Your task to perform on an android device: Search for flights from Helsinki to Seoul Image 0: 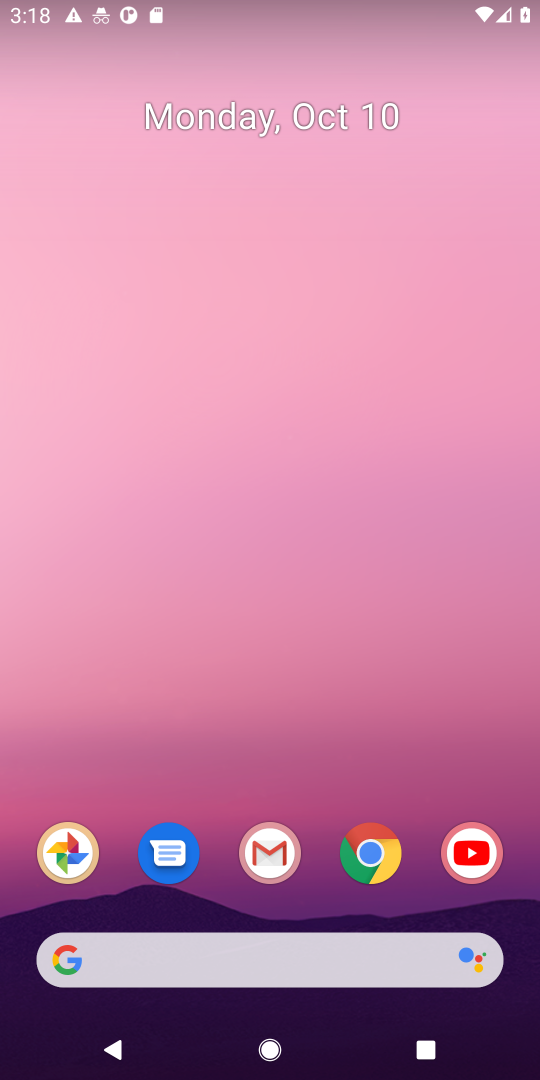
Step 0: click (373, 864)
Your task to perform on an android device: Search for flights from Helsinki to Seoul Image 1: 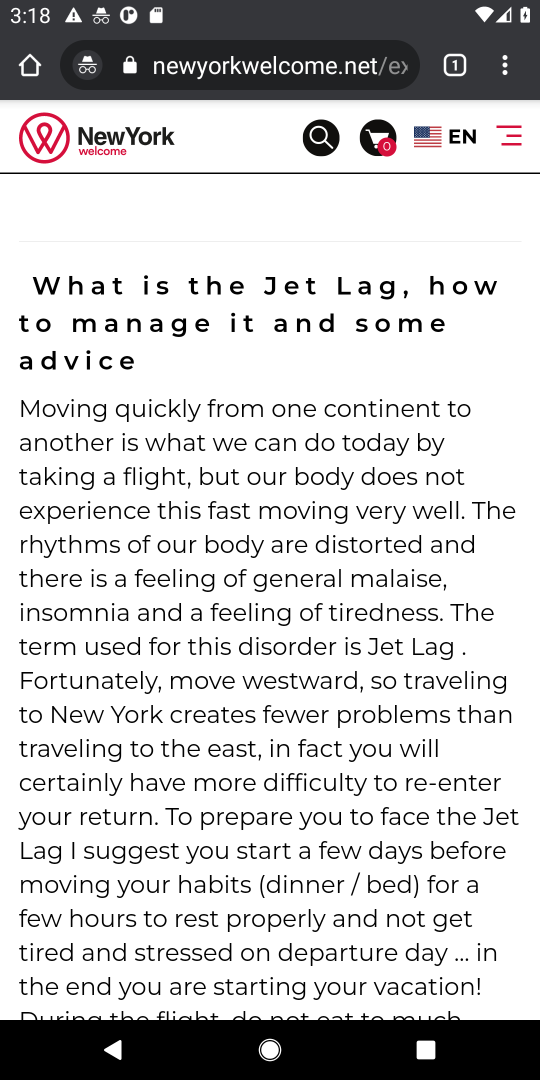
Step 1: click (290, 79)
Your task to perform on an android device: Search for flights from Helsinki to Seoul Image 2: 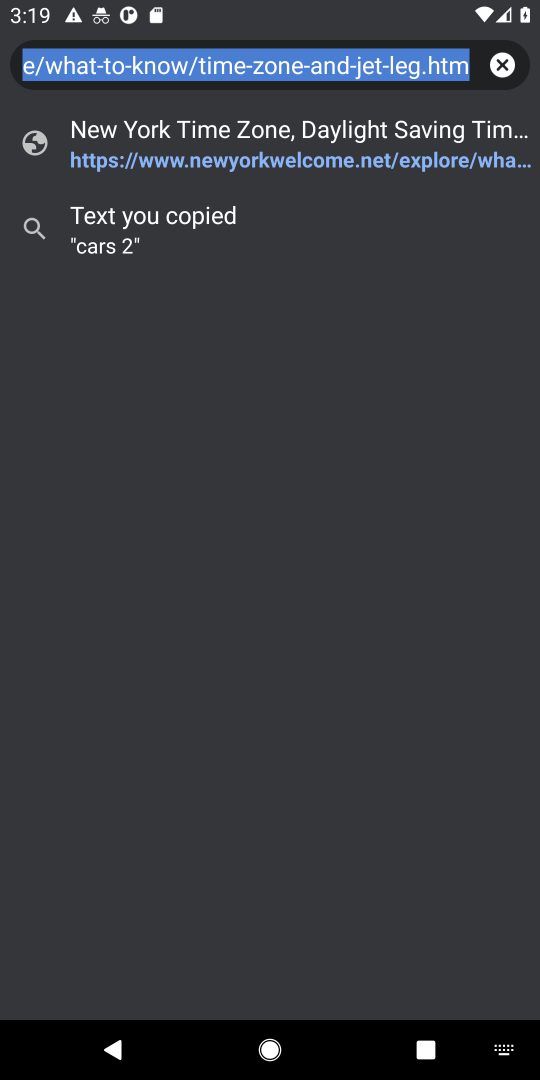
Step 2: click (504, 71)
Your task to perform on an android device: Search for flights from Helsinki to Seoul Image 3: 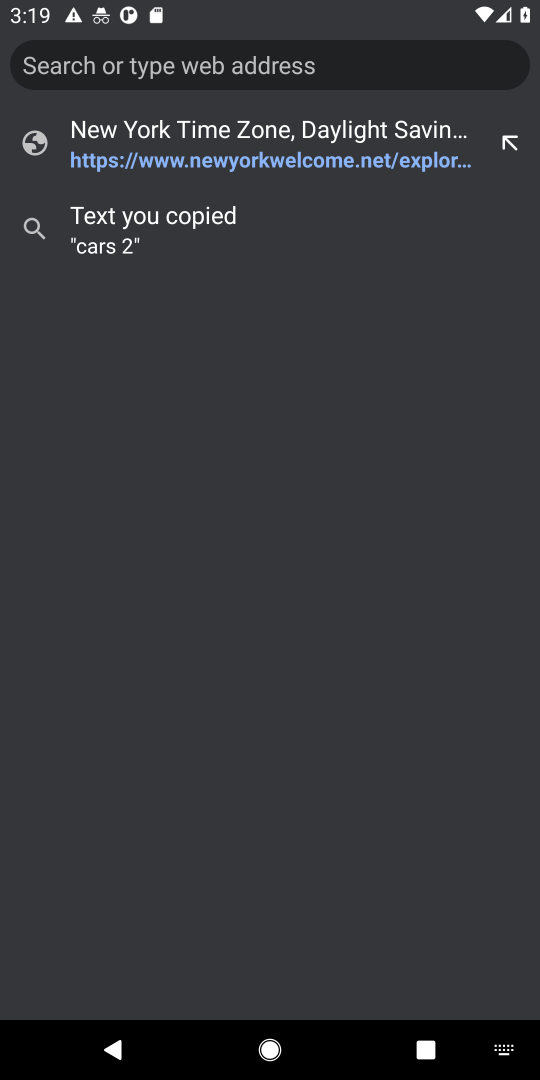
Step 3: type "flights from Helsinki to Seoul"
Your task to perform on an android device: Search for flights from Helsinki to Seoul Image 4: 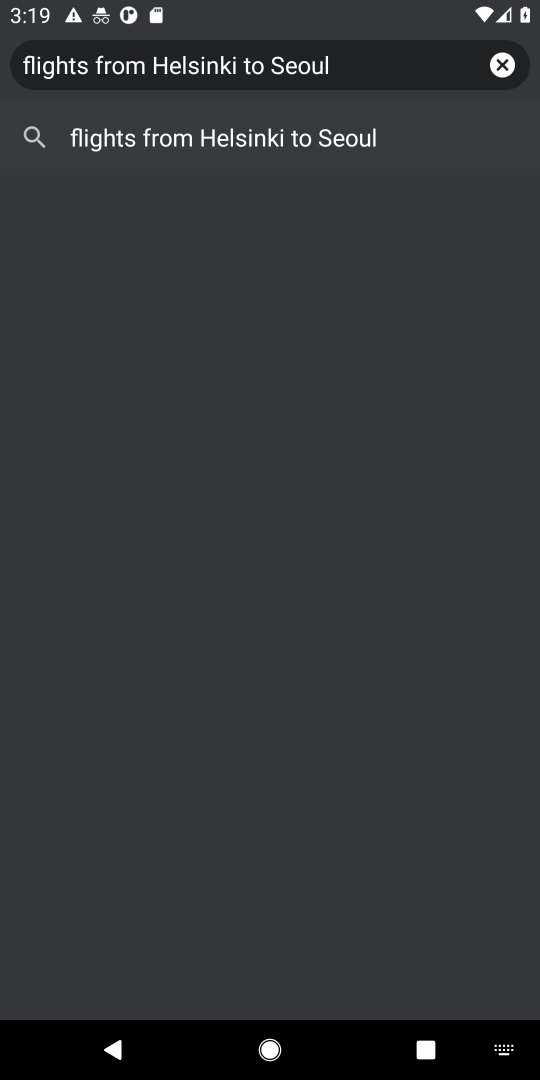
Step 4: type ""
Your task to perform on an android device: Search for flights from Helsinki to Seoul Image 5: 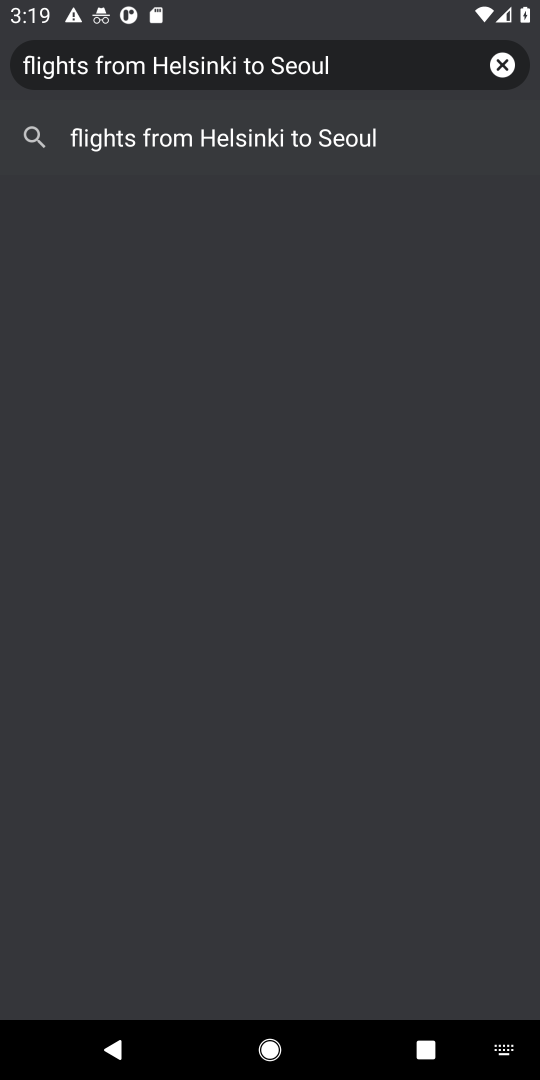
Step 5: click (351, 130)
Your task to perform on an android device: Search for flights from Helsinki to Seoul Image 6: 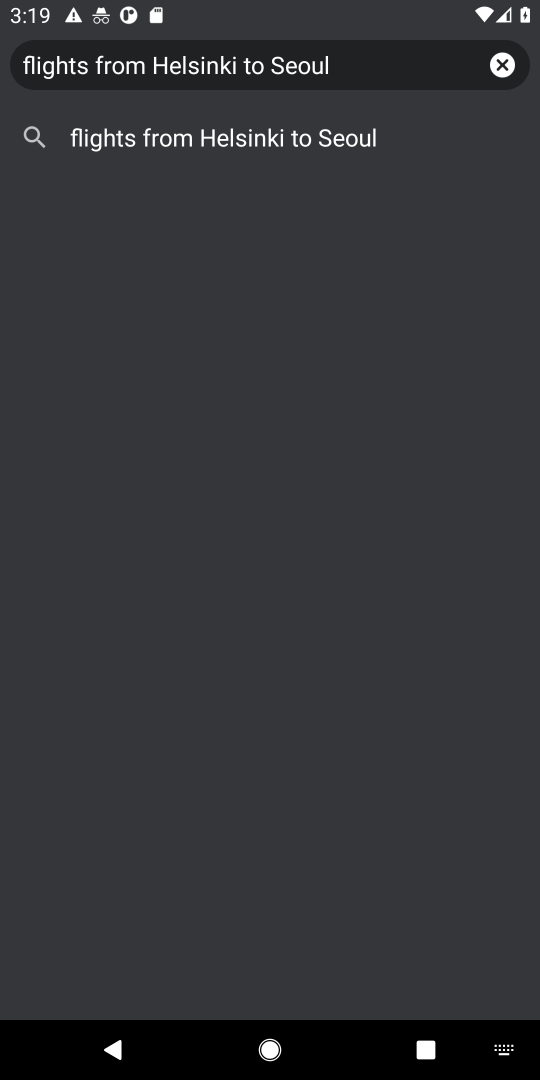
Step 6: press enter
Your task to perform on an android device: Search for flights from Helsinki to Seoul Image 7: 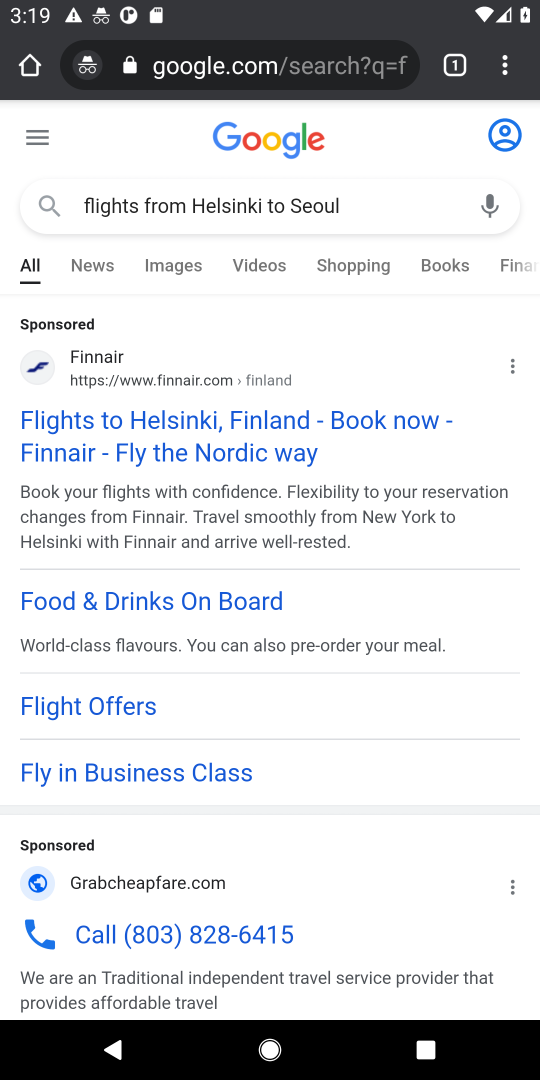
Step 7: click (228, 422)
Your task to perform on an android device: Search for flights from Helsinki to Seoul Image 8: 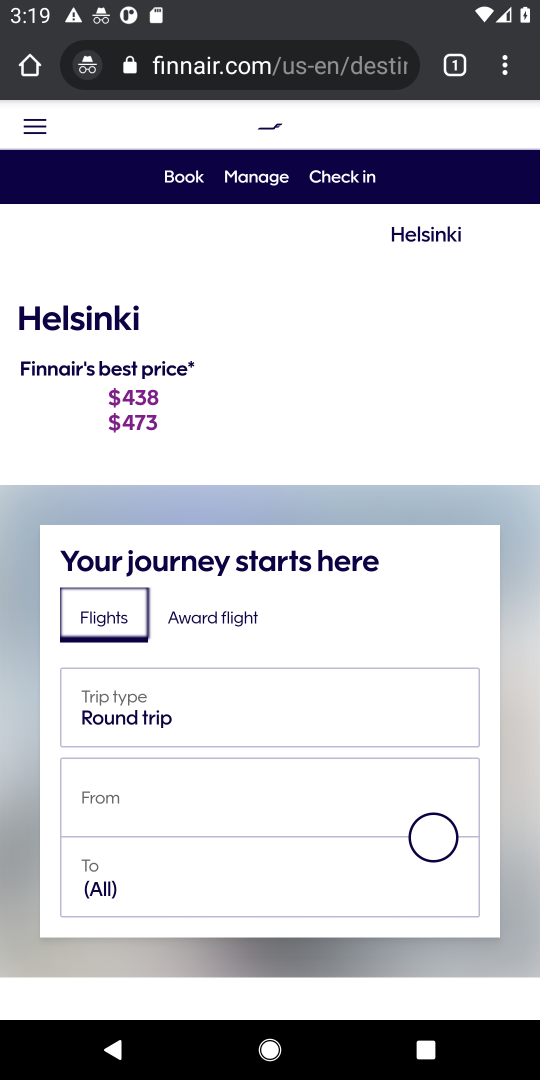
Step 8: drag from (307, 655) to (364, 288)
Your task to perform on an android device: Search for flights from Helsinki to Seoul Image 9: 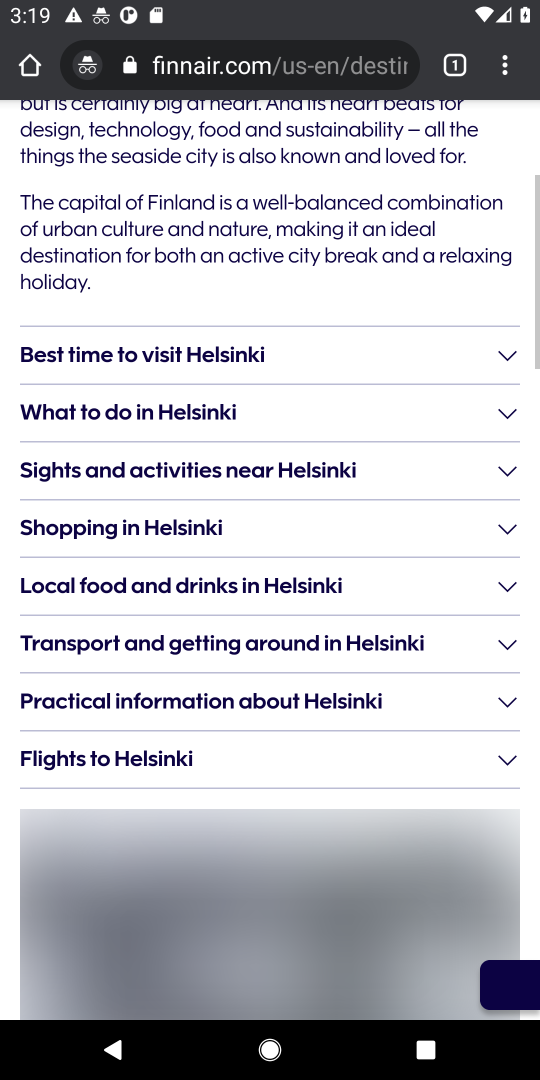
Step 9: drag from (399, 623) to (394, 352)
Your task to perform on an android device: Search for flights from Helsinki to Seoul Image 10: 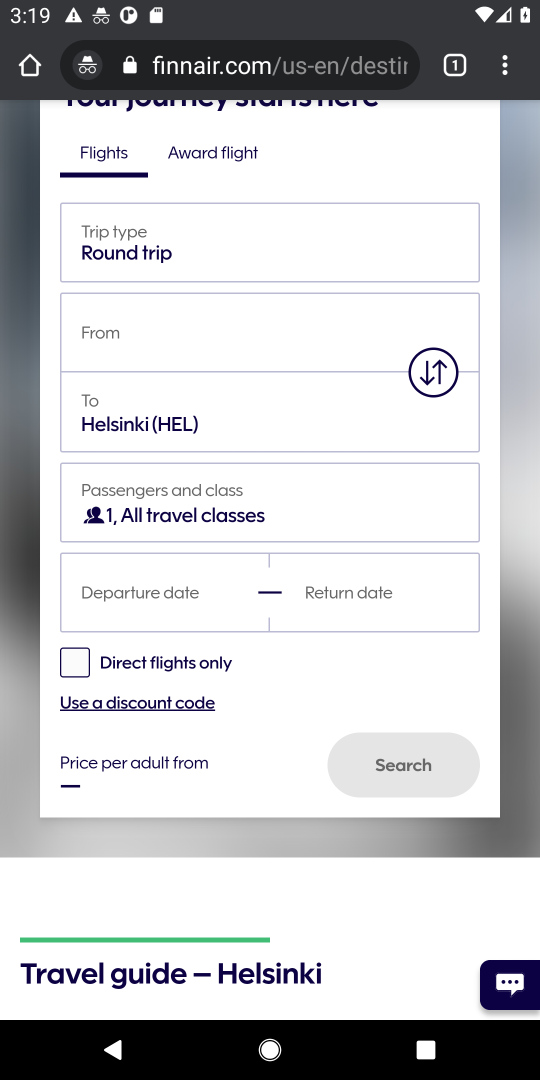
Step 10: drag from (357, 672) to (358, 390)
Your task to perform on an android device: Search for flights from Helsinki to Seoul Image 11: 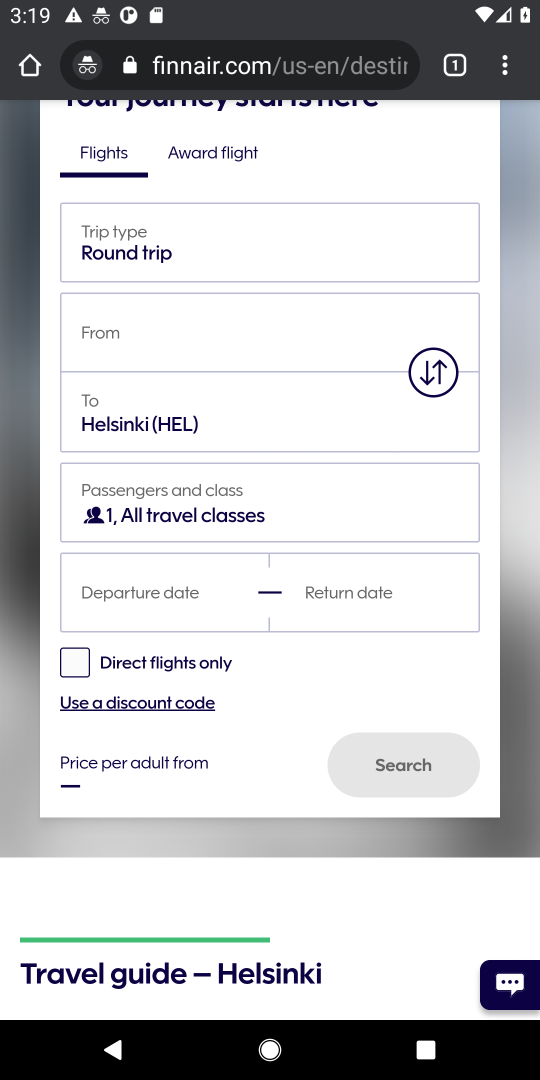
Step 11: drag from (354, 631) to (412, 441)
Your task to perform on an android device: Search for flights from Helsinki to Seoul Image 12: 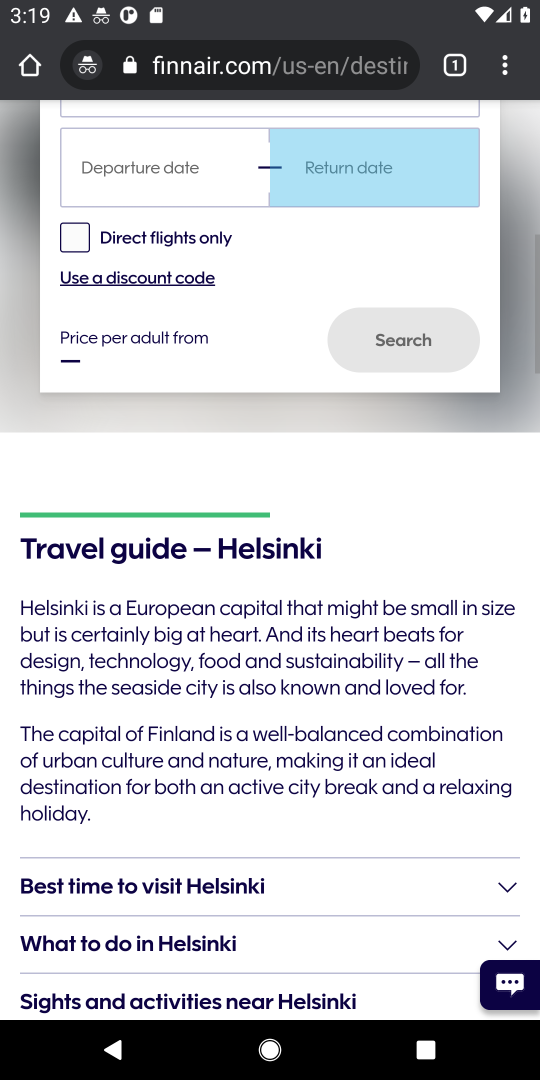
Step 12: drag from (460, 745) to (418, 411)
Your task to perform on an android device: Search for flights from Helsinki to Seoul Image 13: 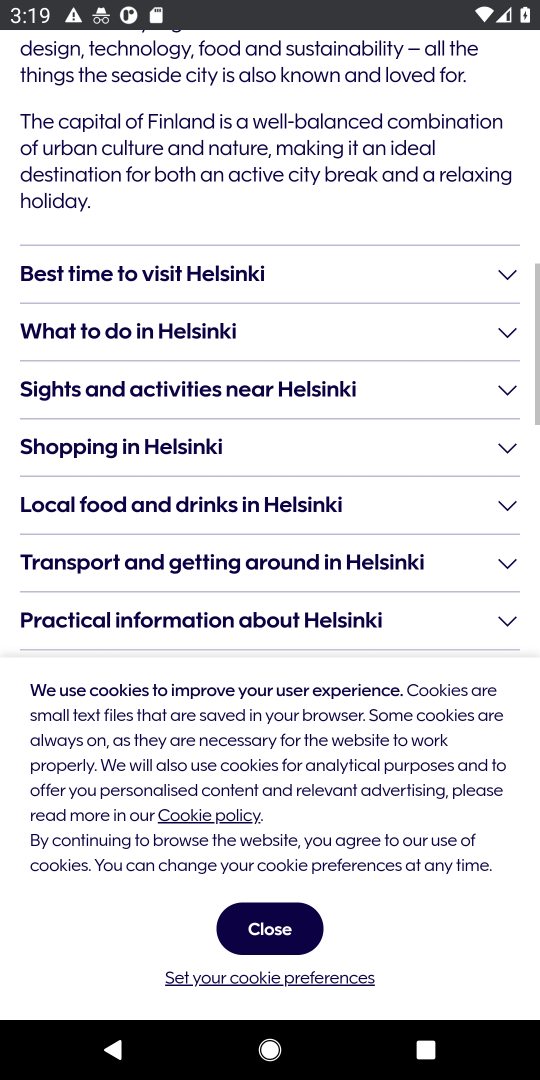
Step 13: click (419, 502)
Your task to perform on an android device: Search for flights from Helsinki to Seoul Image 14: 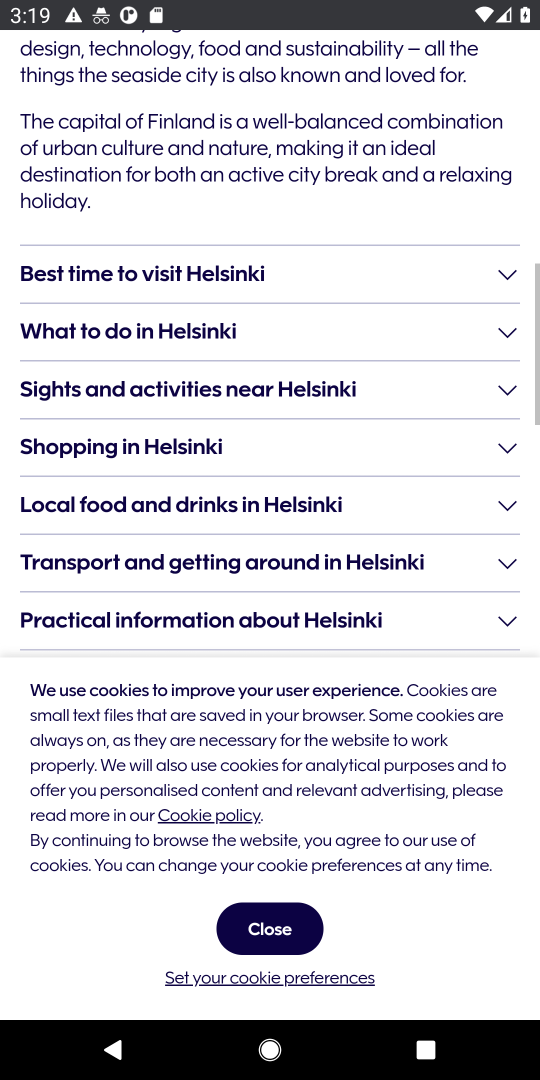
Step 14: click (259, 937)
Your task to perform on an android device: Search for flights from Helsinki to Seoul Image 15: 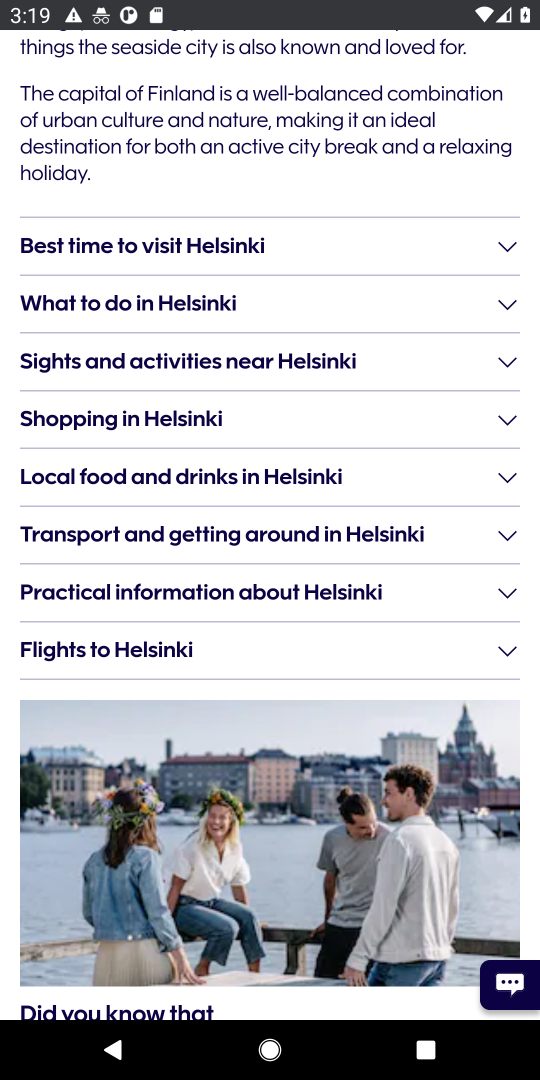
Step 15: drag from (265, 681) to (256, 403)
Your task to perform on an android device: Search for flights from Helsinki to Seoul Image 16: 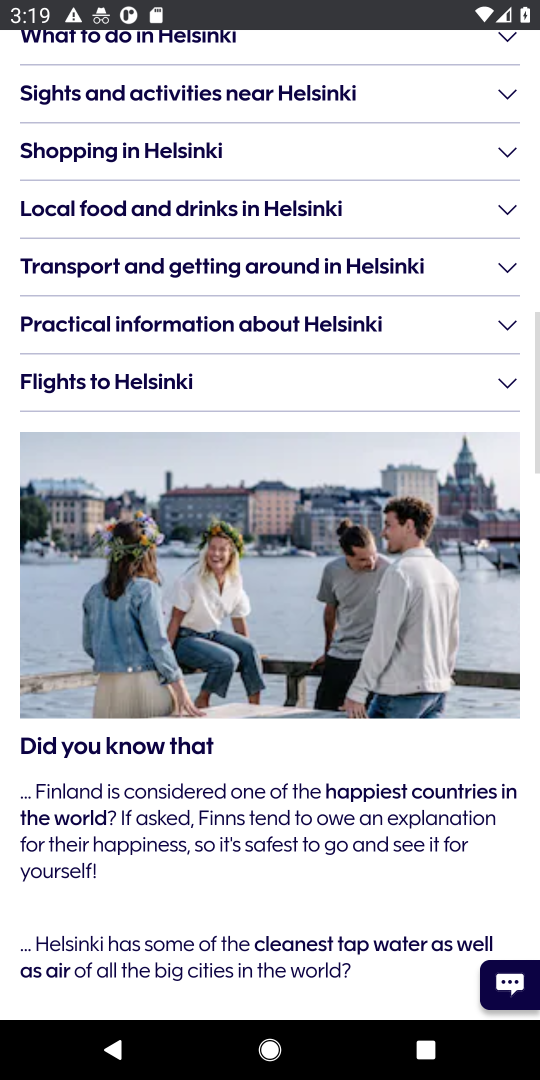
Step 16: drag from (260, 578) to (279, 375)
Your task to perform on an android device: Search for flights from Helsinki to Seoul Image 17: 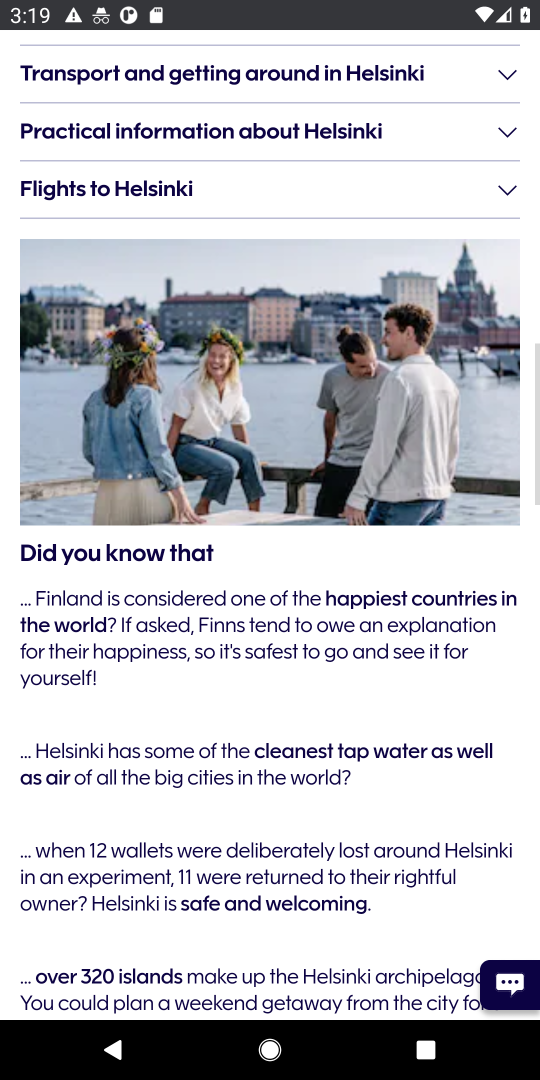
Step 17: drag from (282, 795) to (313, 370)
Your task to perform on an android device: Search for flights from Helsinki to Seoul Image 18: 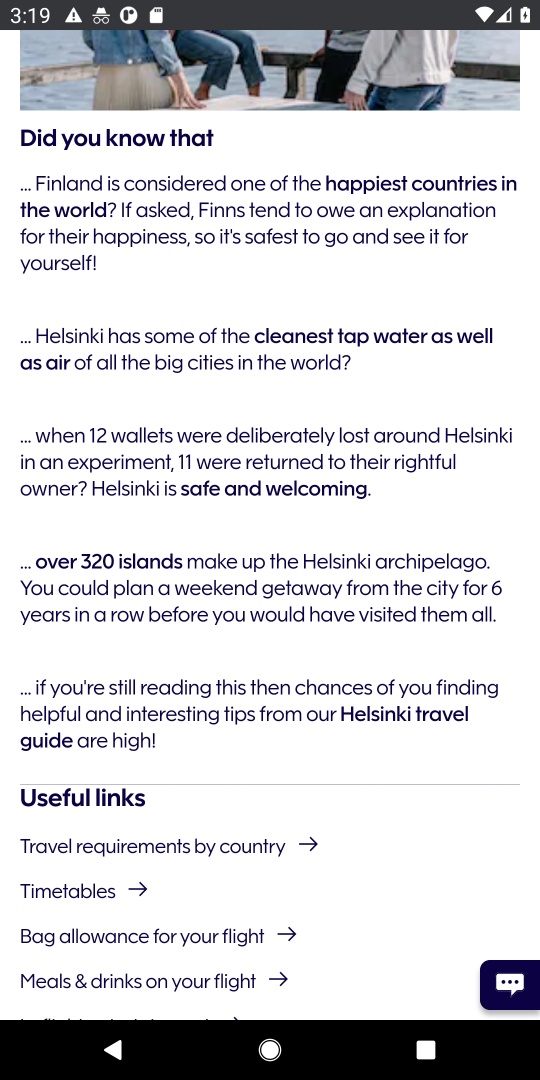
Step 18: drag from (390, 646) to (368, 490)
Your task to perform on an android device: Search for flights from Helsinki to Seoul Image 19: 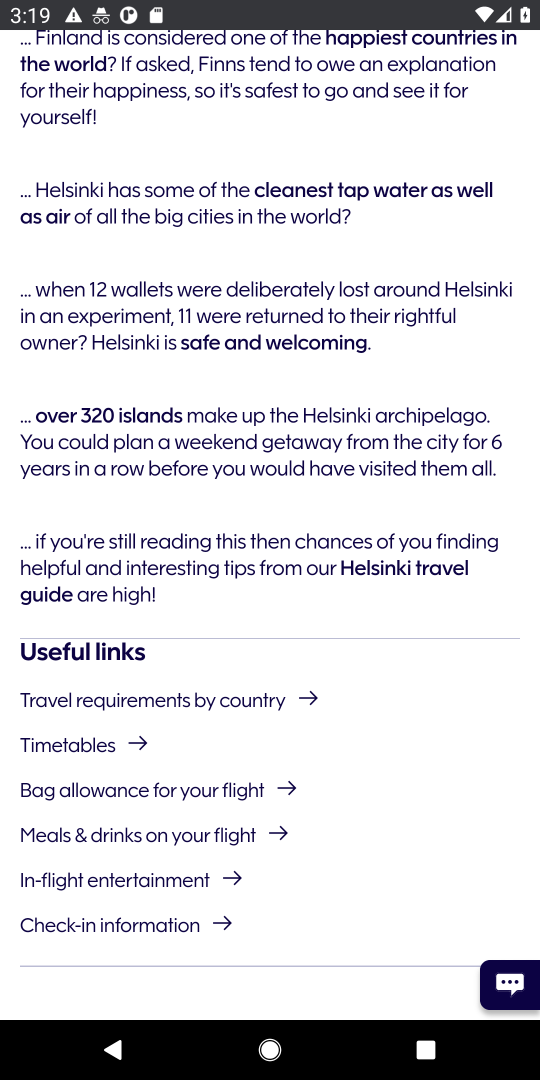
Step 19: drag from (404, 855) to (382, 269)
Your task to perform on an android device: Search for flights from Helsinki to Seoul Image 20: 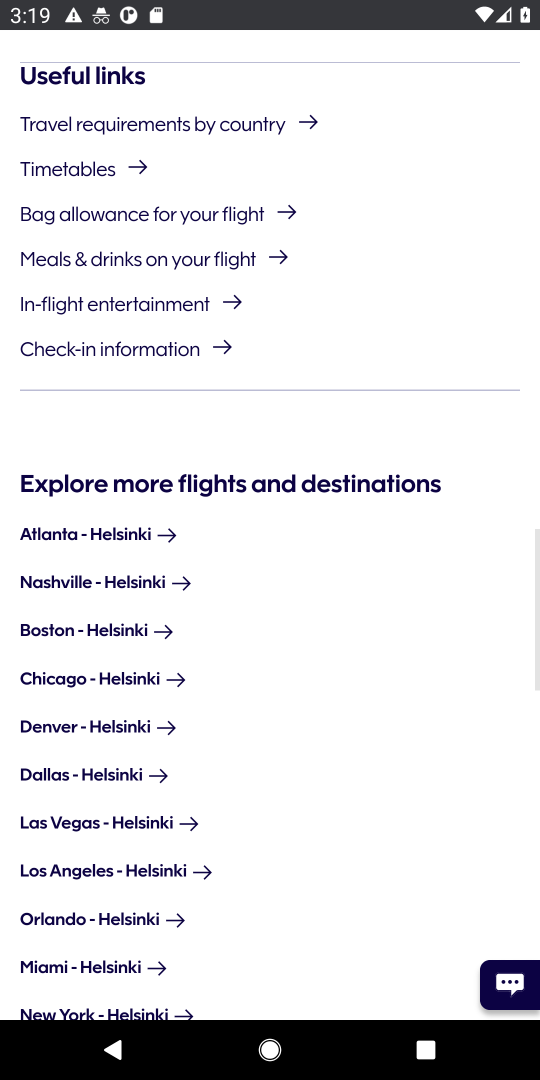
Step 20: drag from (457, 417) to (515, 212)
Your task to perform on an android device: Search for flights from Helsinki to Seoul Image 21: 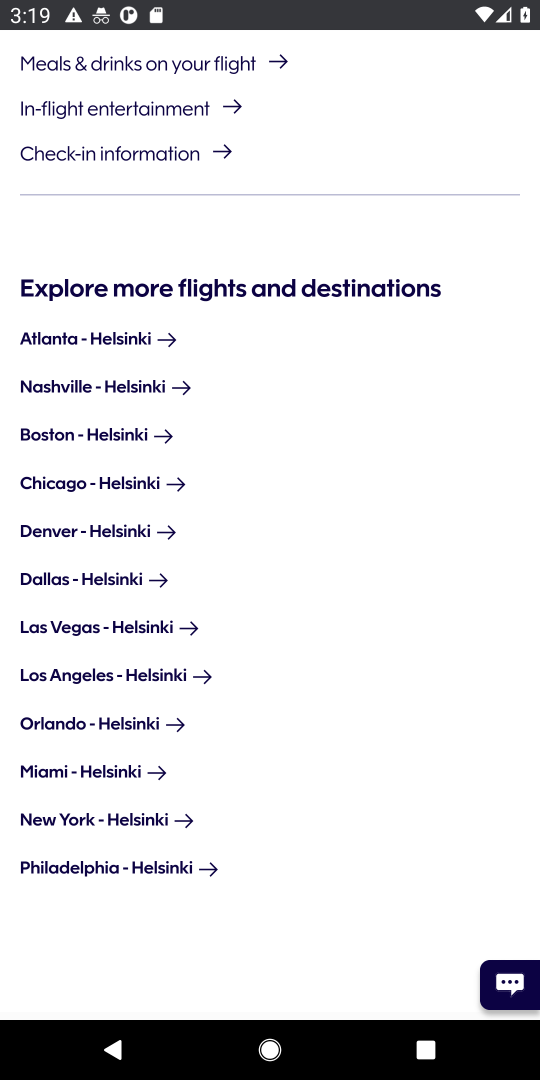
Step 21: drag from (527, 617) to (488, 236)
Your task to perform on an android device: Search for flights from Helsinki to Seoul Image 22: 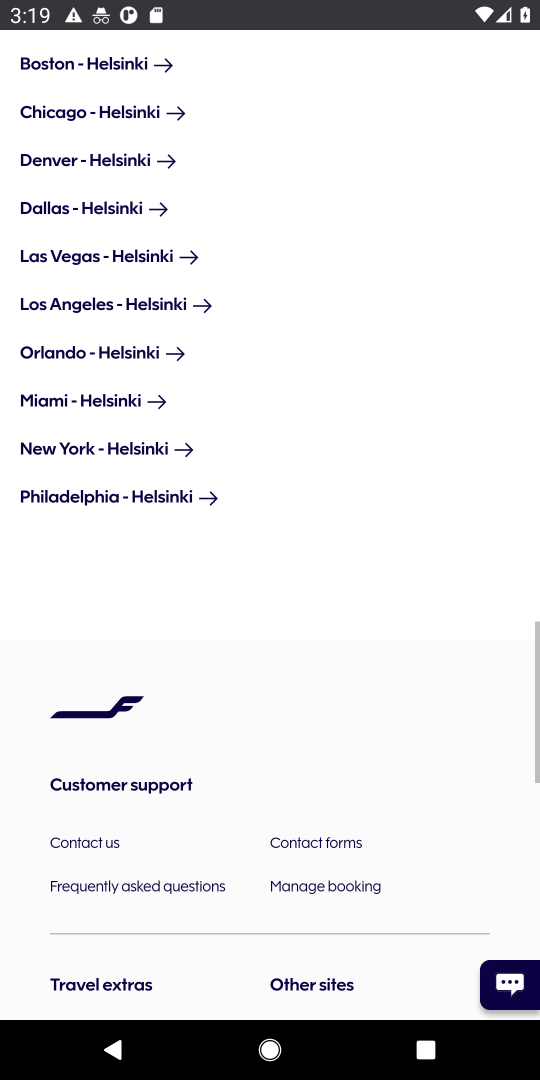
Step 22: drag from (455, 514) to (447, 722)
Your task to perform on an android device: Search for flights from Helsinki to Seoul Image 23: 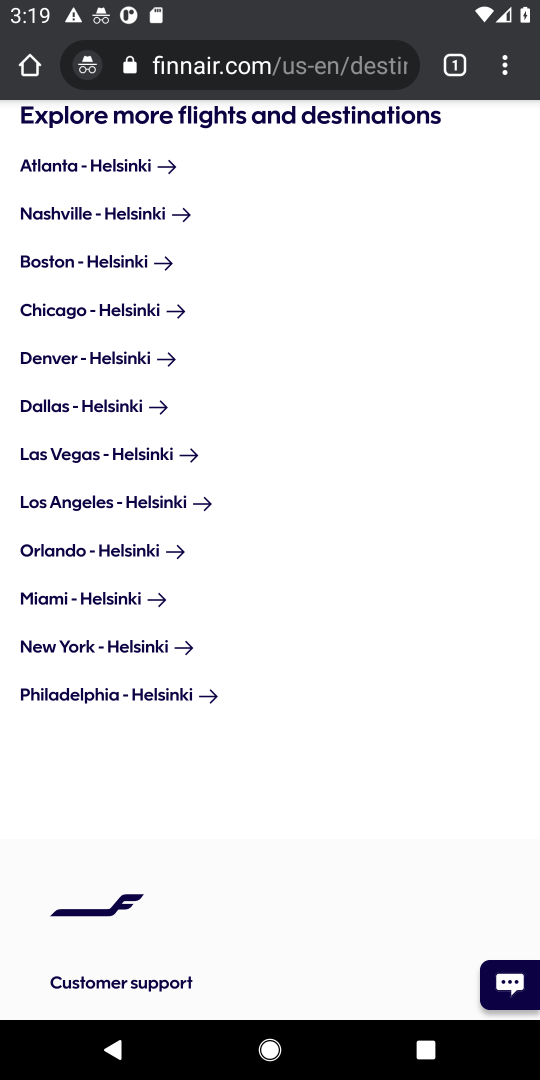
Step 23: press back button
Your task to perform on an android device: Search for flights from Helsinki to Seoul Image 24: 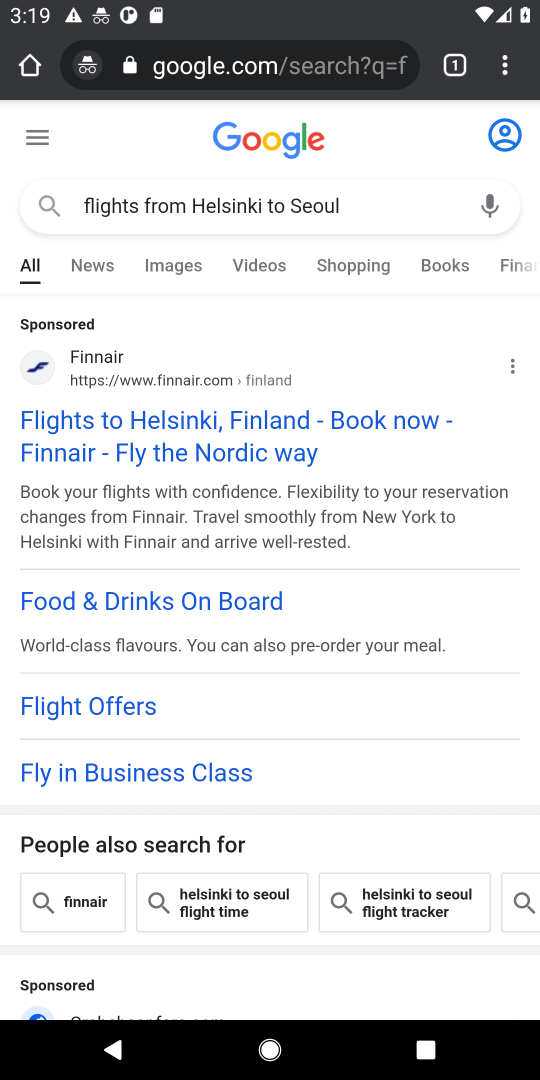
Step 24: drag from (311, 602) to (309, 365)
Your task to perform on an android device: Search for flights from Helsinki to Seoul Image 25: 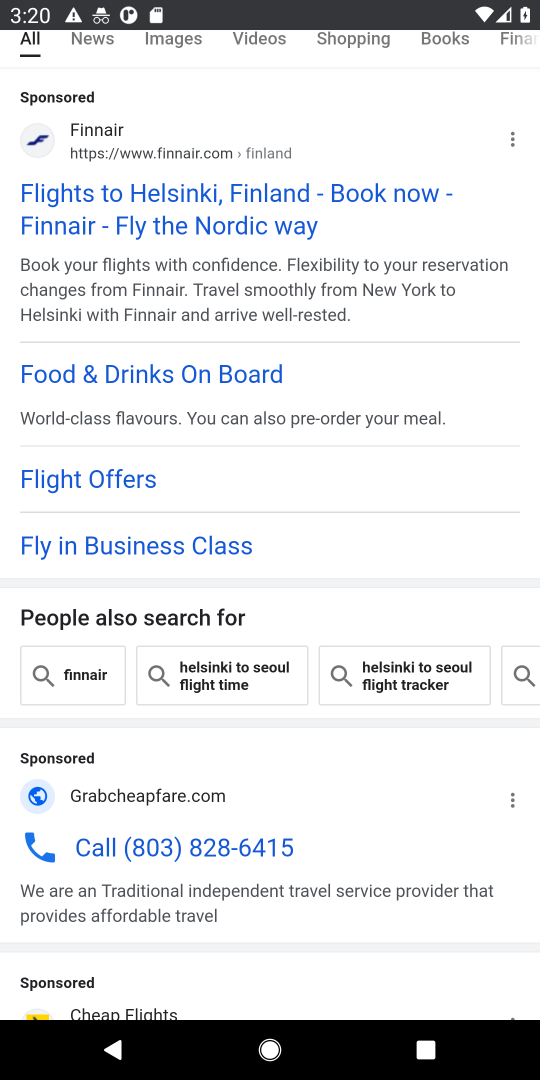
Step 25: drag from (188, 773) to (244, 132)
Your task to perform on an android device: Search for flights from Helsinki to Seoul Image 26: 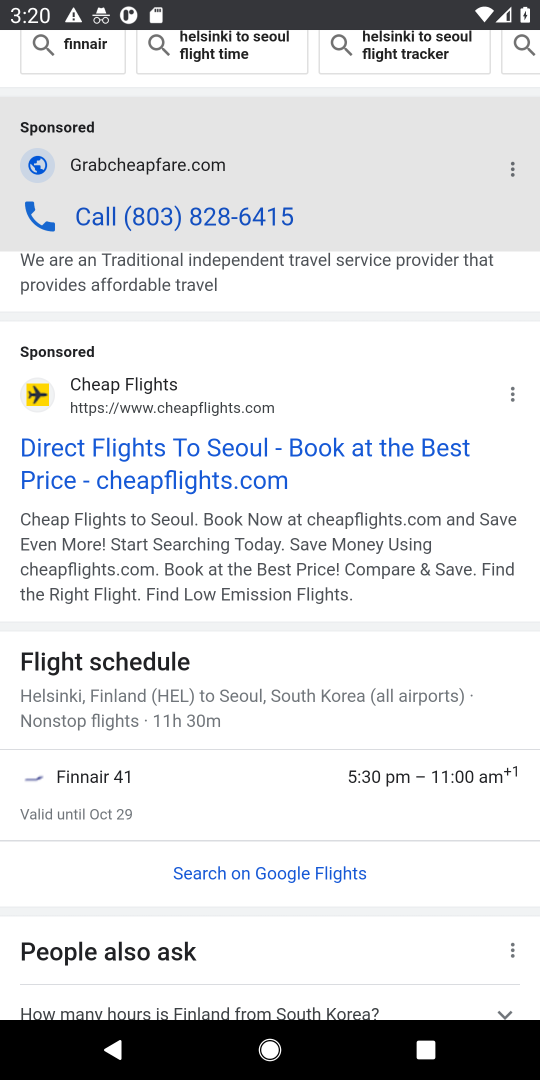
Step 26: click (119, 444)
Your task to perform on an android device: Search for flights from Helsinki to Seoul Image 27: 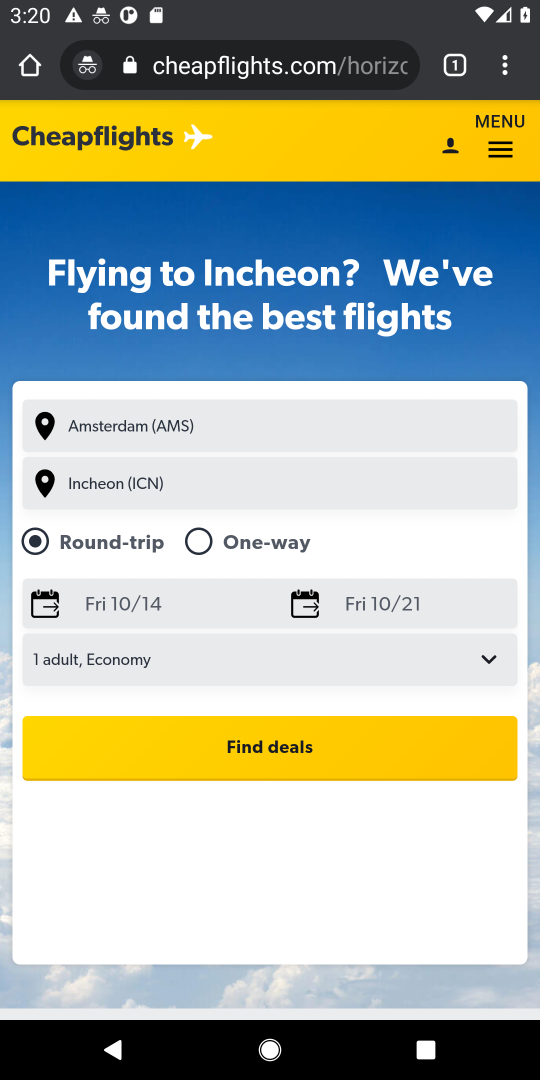
Step 27: drag from (190, 909) to (326, 258)
Your task to perform on an android device: Search for flights from Helsinki to Seoul Image 28: 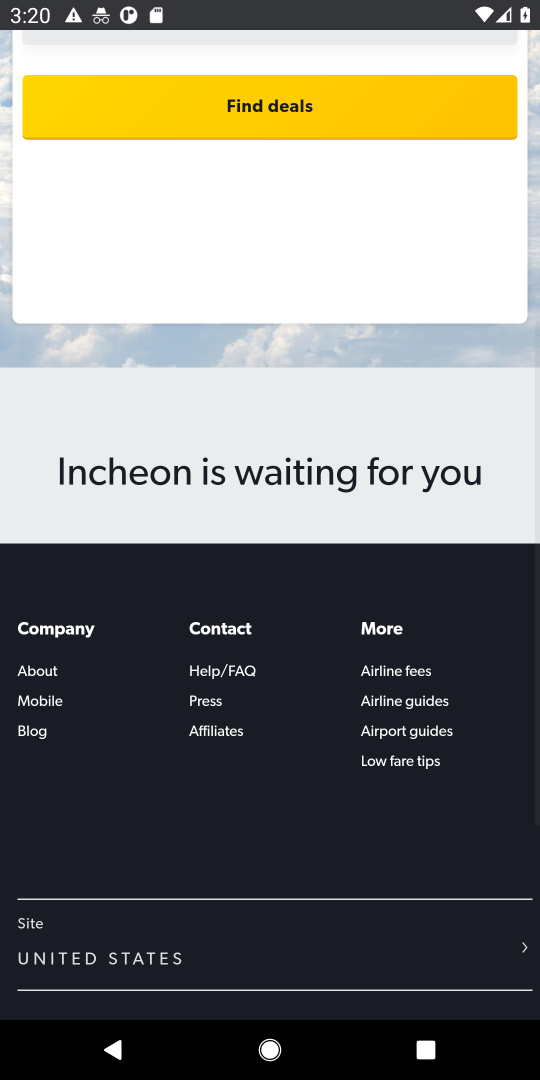
Step 28: drag from (360, 514) to (404, 971)
Your task to perform on an android device: Search for flights from Helsinki to Seoul Image 29: 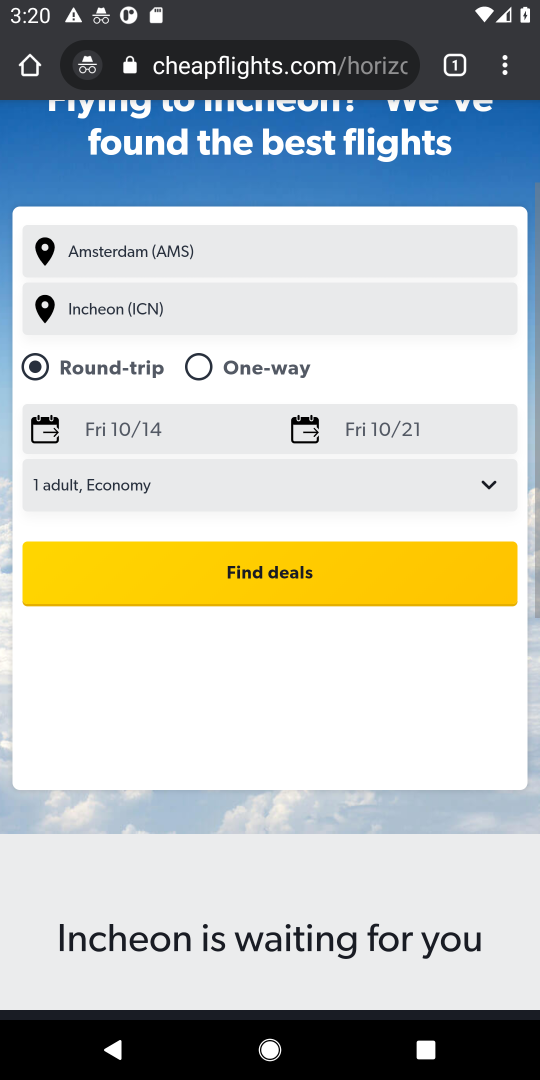
Step 29: drag from (400, 318) to (352, 845)
Your task to perform on an android device: Search for flights from Helsinki to Seoul Image 30: 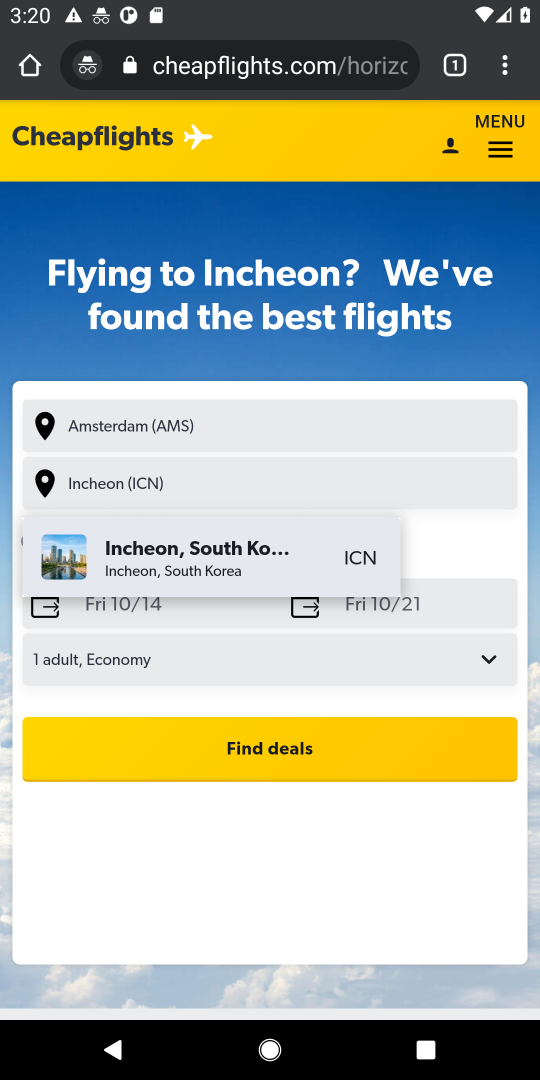
Step 30: drag from (341, 474) to (382, 578)
Your task to perform on an android device: Search for flights from Helsinki to Seoul Image 31: 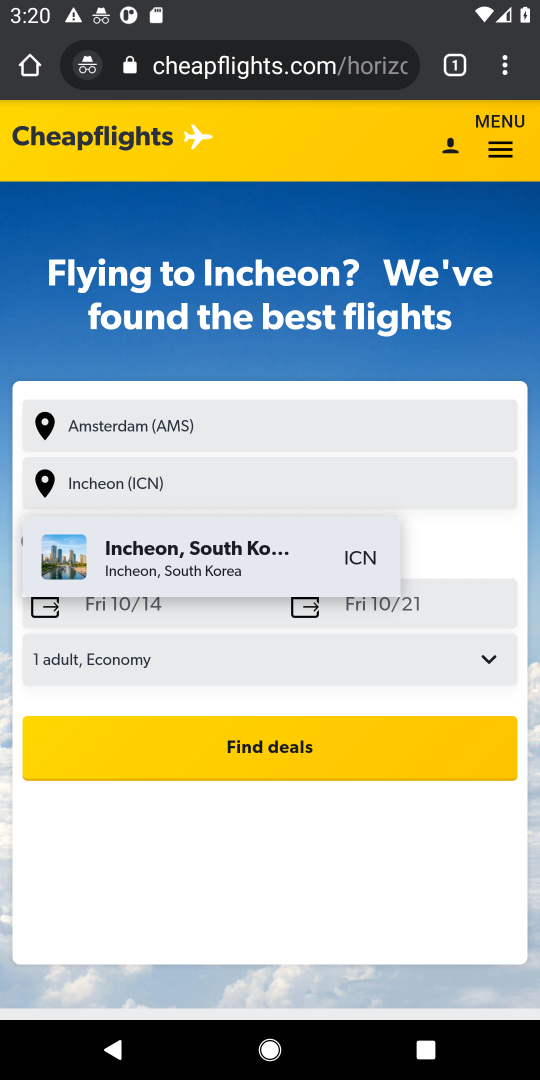
Step 31: press back button
Your task to perform on an android device: Search for flights from Helsinki to Seoul Image 32: 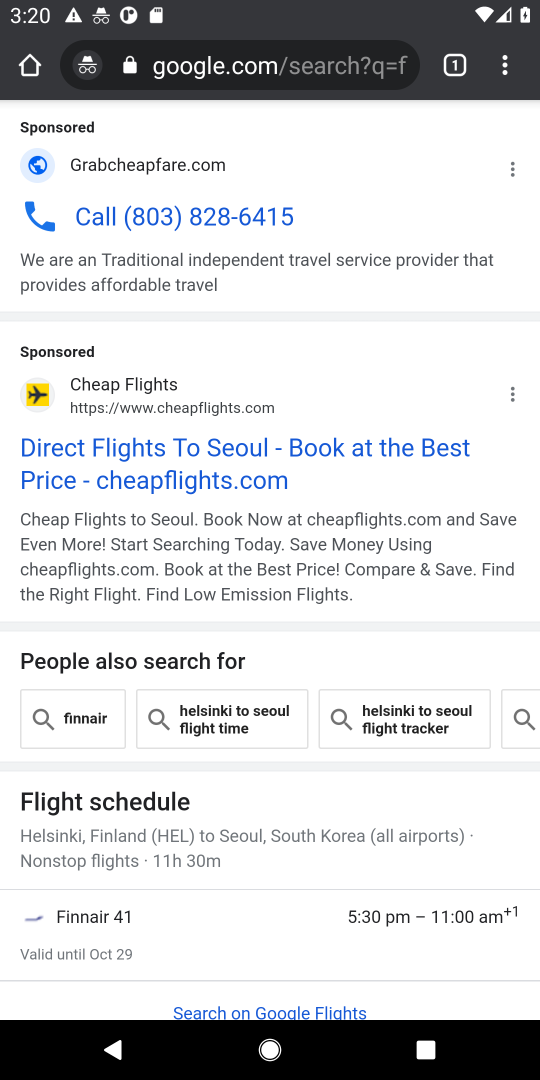
Step 32: drag from (226, 762) to (251, 308)
Your task to perform on an android device: Search for flights from Helsinki to Seoul Image 33: 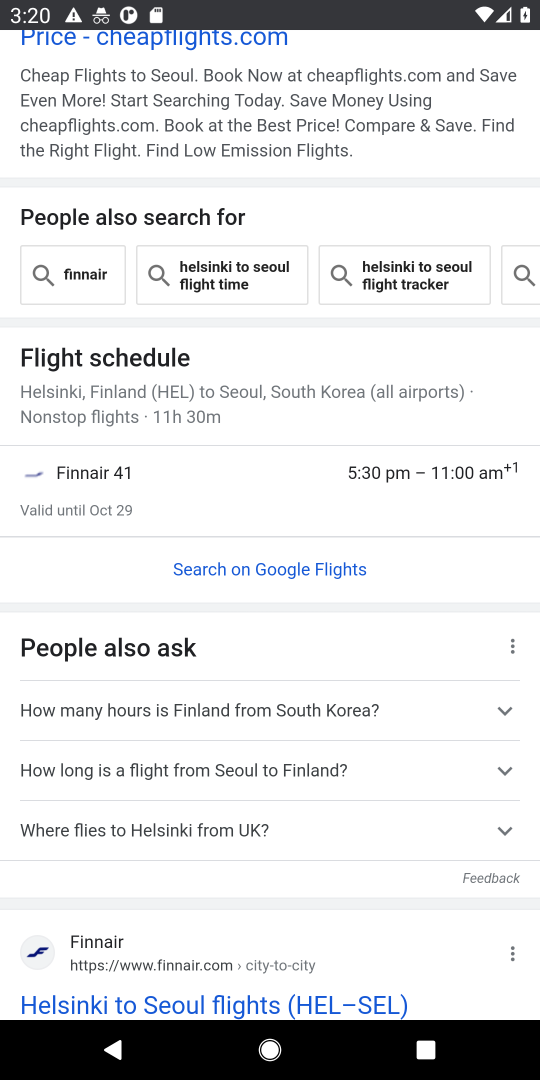
Step 33: click (194, 981)
Your task to perform on an android device: Search for flights from Helsinki to Seoul Image 34: 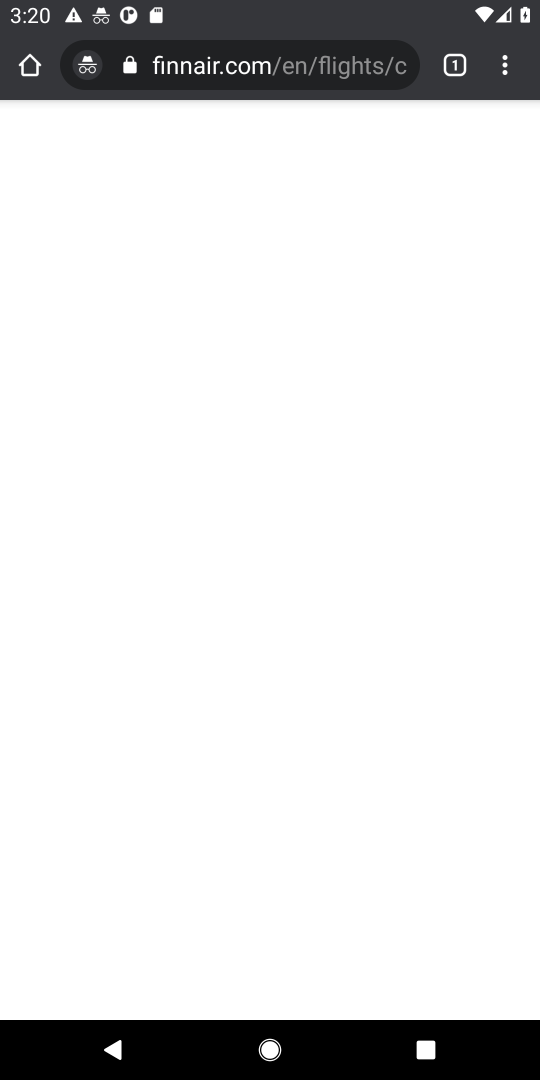
Step 34: drag from (198, 981) to (253, 371)
Your task to perform on an android device: Search for flights from Helsinki to Seoul Image 35: 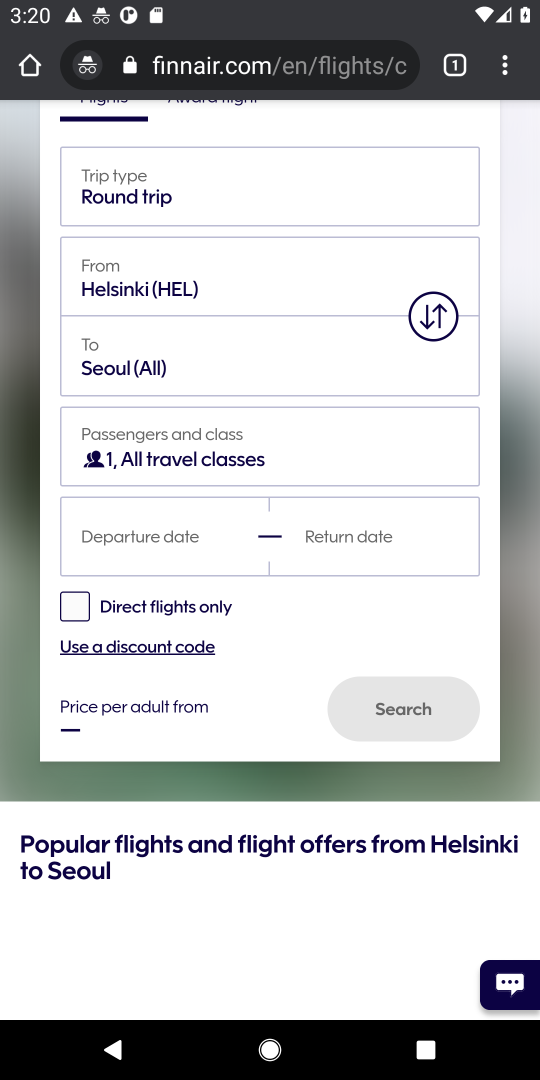
Step 35: drag from (232, 751) to (257, 334)
Your task to perform on an android device: Search for flights from Helsinki to Seoul Image 36: 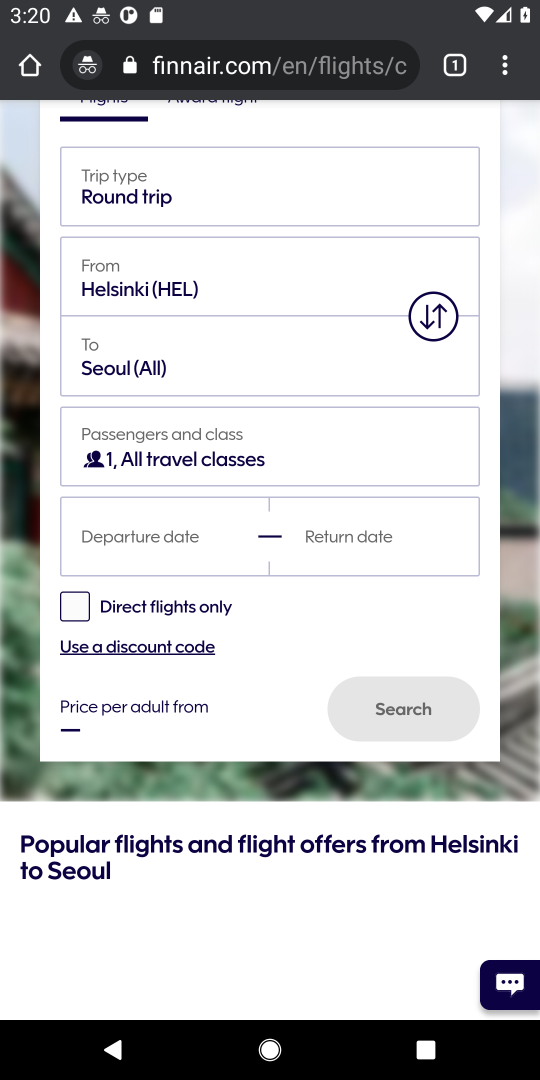
Step 36: drag from (250, 823) to (280, 354)
Your task to perform on an android device: Search for flights from Helsinki to Seoul Image 37: 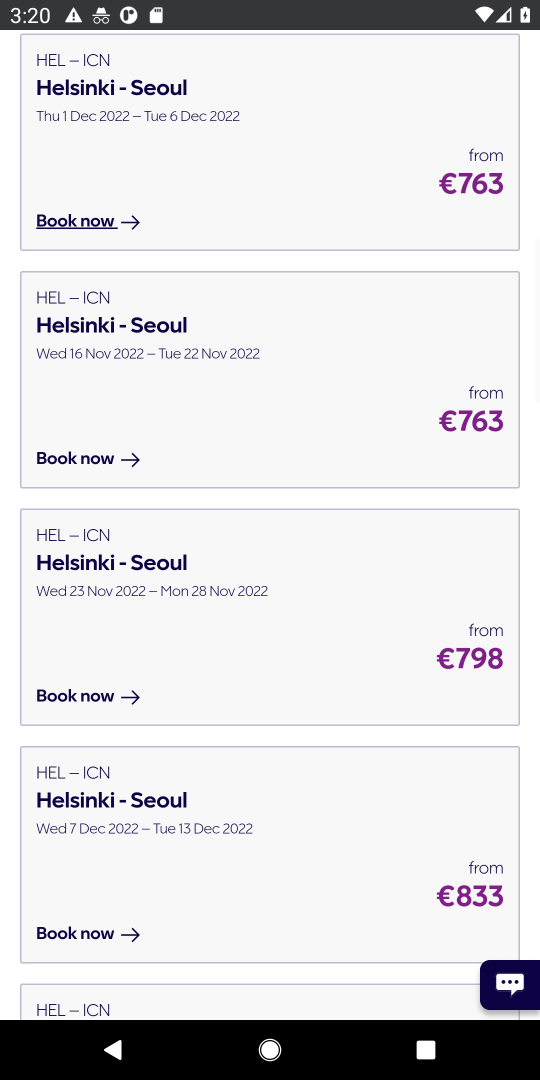
Step 37: drag from (225, 881) to (312, 204)
Your task to perform on an android device: Search for flights from Helsinki to Seoul Image 38: 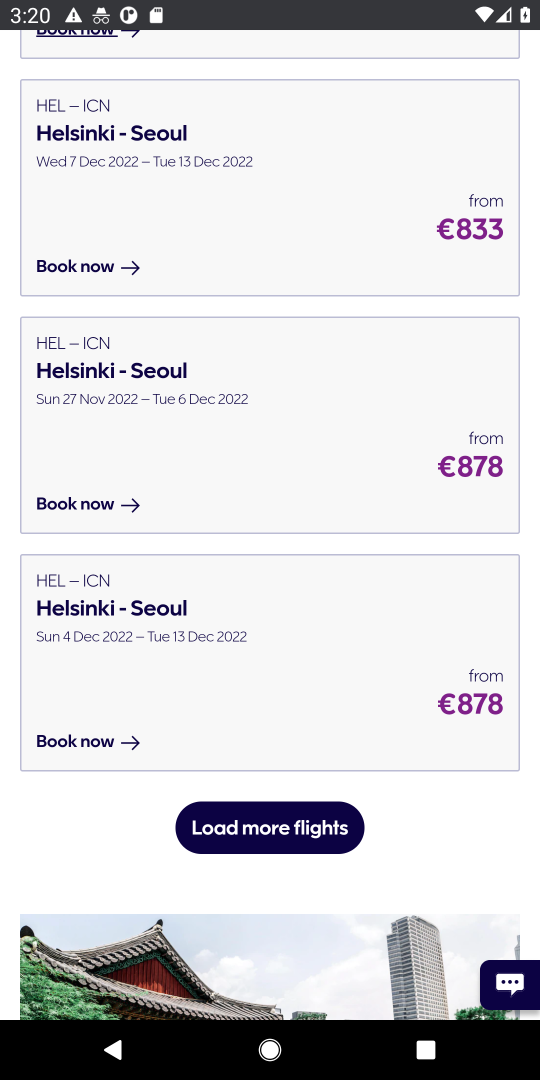
Step 38: drag from (320, 754) to (330, 260)
Your task to perform on an android device: Search for flights from Helsinki to Seoul Image 39: 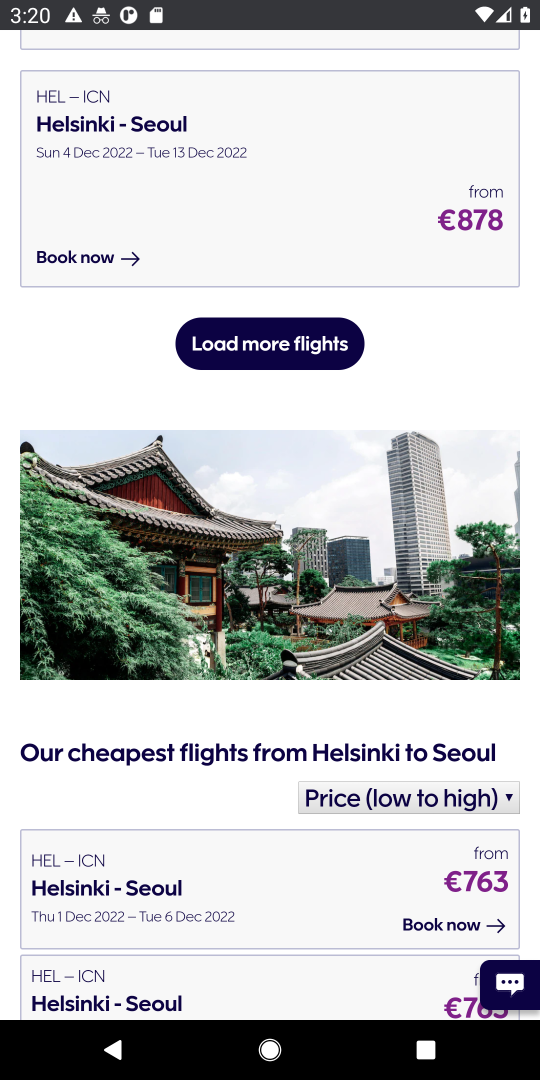
Step 39: drag from (354, 440) to (361, 345)
Your task to perform on an android device: Search for flights from Helsinki to Seoul Image 40: 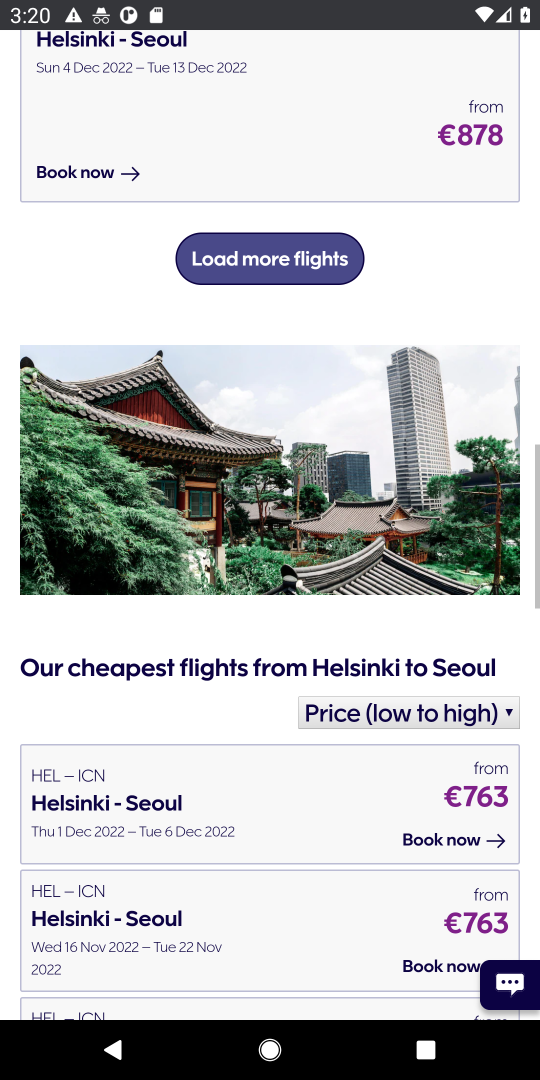
Step 40: drag from (347, 569) to (344, 326)
Your task to perform on an android device: Search for flights from Helsinki to Seoul Image 41: 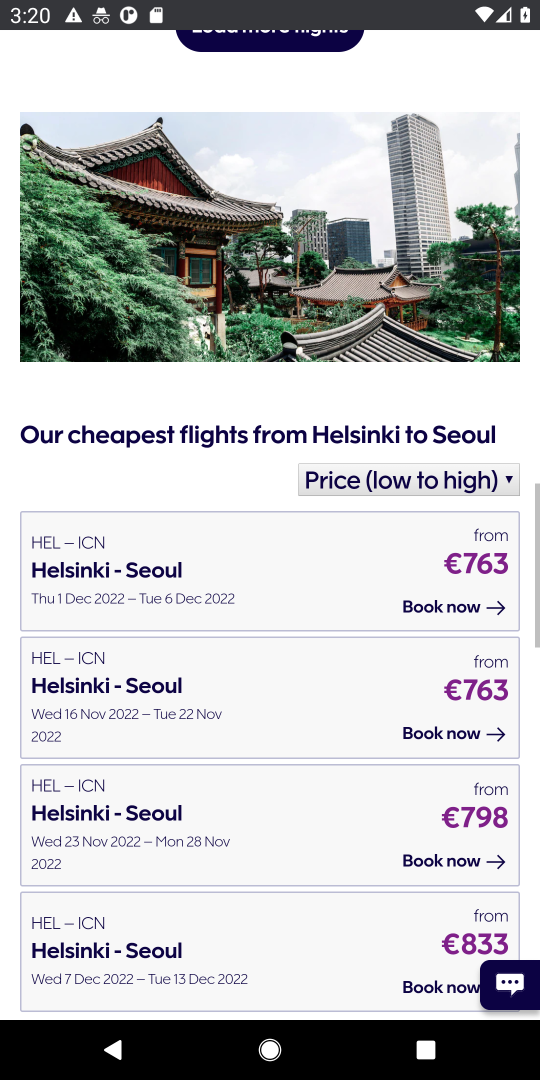
Step 41: drag from (362, 719) to (293, 394)
Your task to perform on an android device: Search for flights from Helsinki to Seoul Image 42: 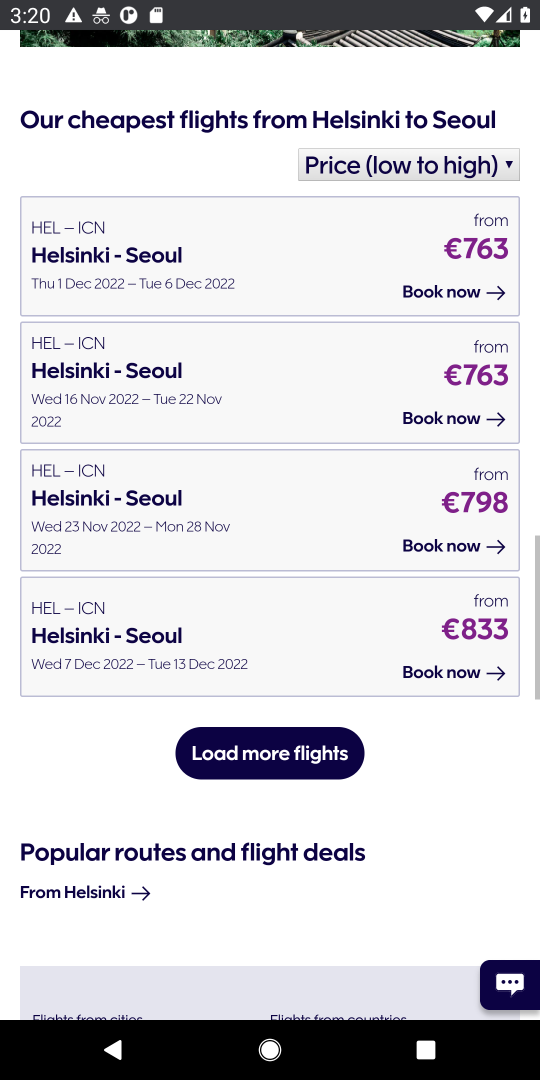
Step 42: drag from (284, 494) to (289, 407)
Your task to perform on an android device: Search for flights from Helsinki to Seoul Image 43: 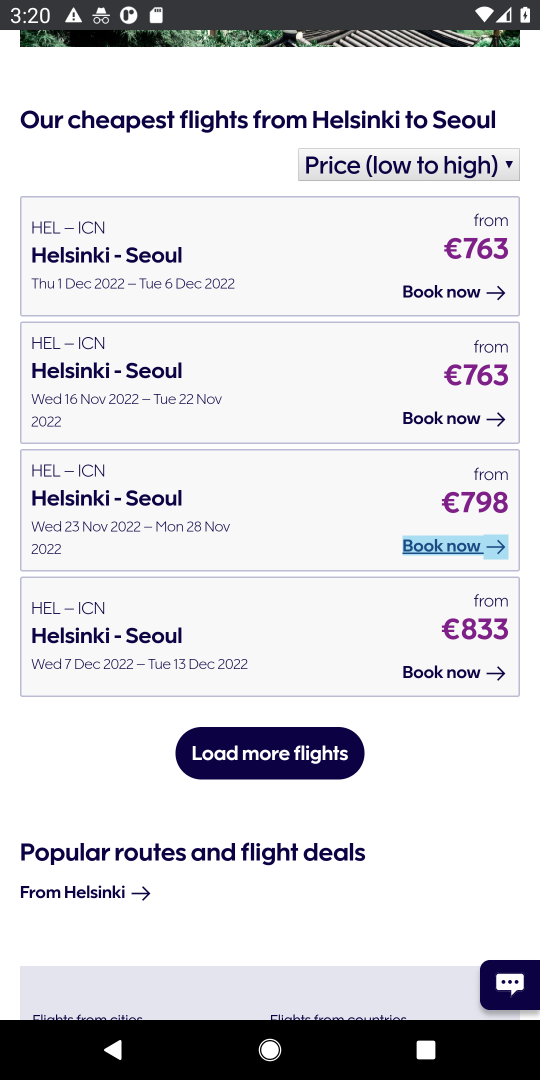
Step 43: drag from (322, 905) to (360, 399)
Your task to perform on an android device: Search for flights from Helsinki to Seoul Image 44: 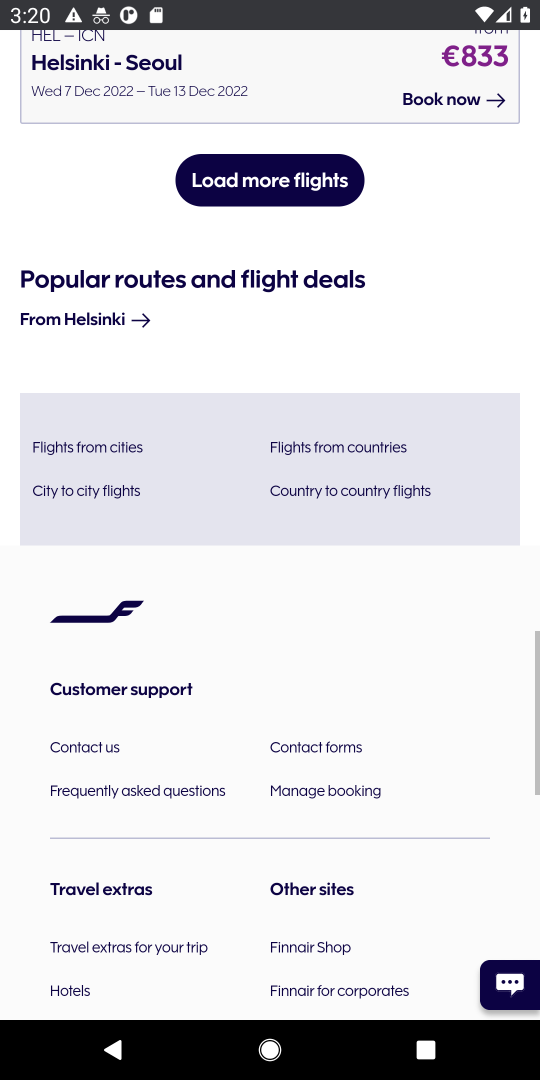
Step 44: drag from (401, 812) to (427, 363)
Your task to perform on an android device: Search for flights from Helsinki to Seoul Image 45: 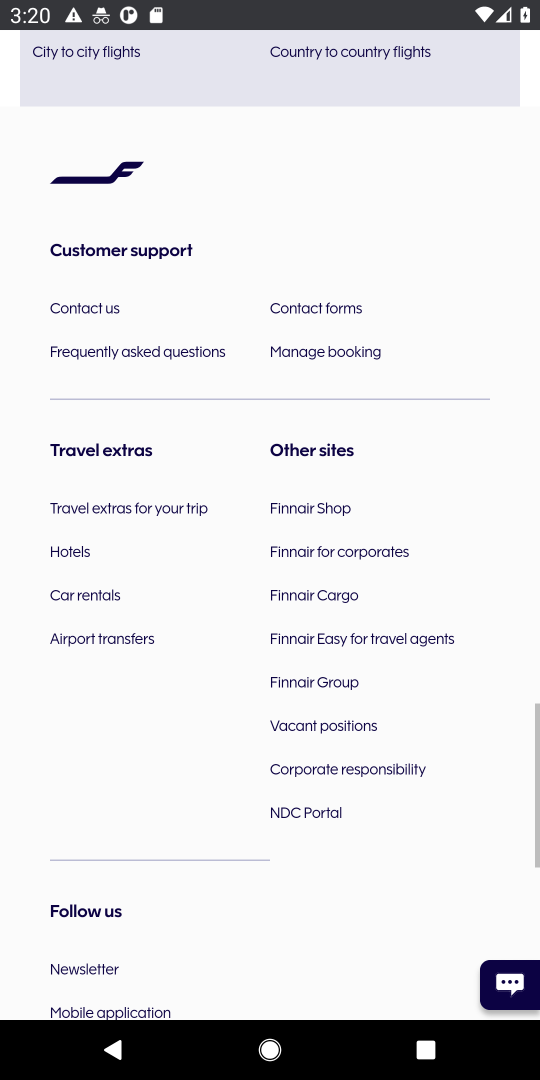
Step 45: drag from (428, 877) to (451, 406)
Your task to perform on an android device: Search for flights from Helsinki to Seoul Image 46: 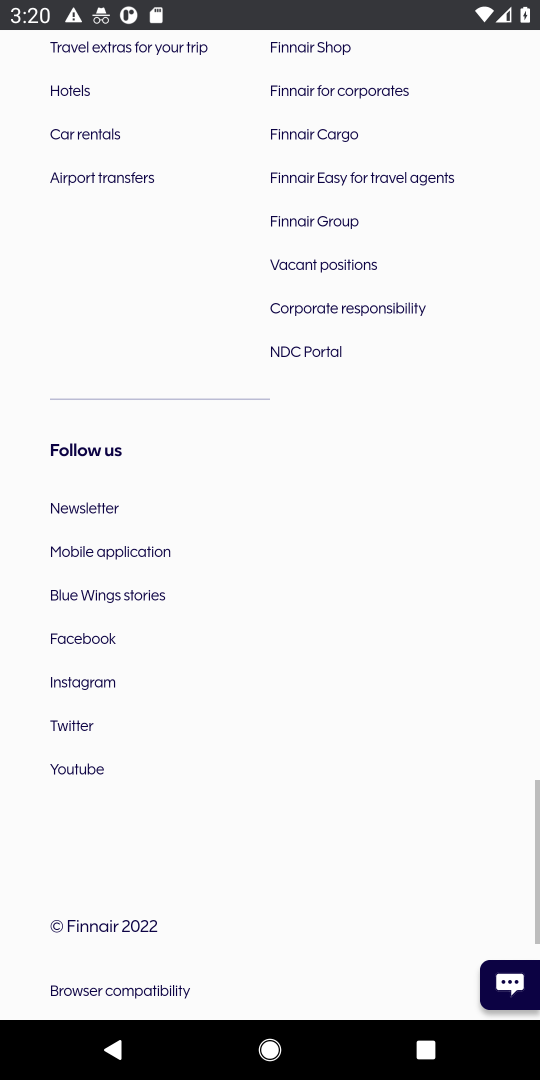
Step 46: drag from (438, 898) to (438, 462)
Your task to perform on an android device: Search for flights from Helsinki to Seoul Image 47: 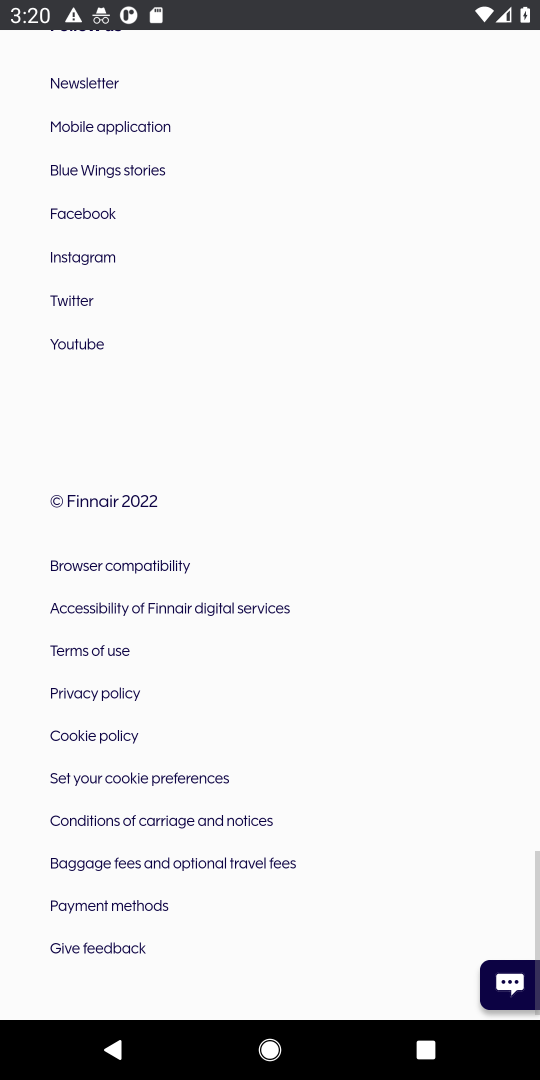
Step 47: drag from (378, 518) to (387, 440)
Your task to perform on an android device: Search for flights from Helsinki to Seoul Image 48: 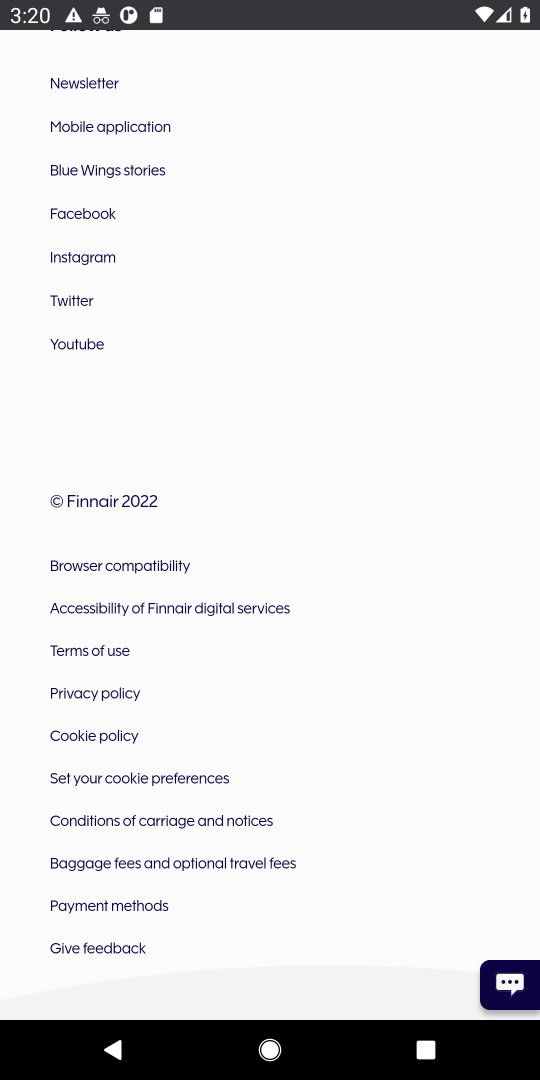
Step 48: drag from (390, 655) to (343, 855)
Your task to perform on an android device: Search for flights from Helsinki to Seoul Image 49: 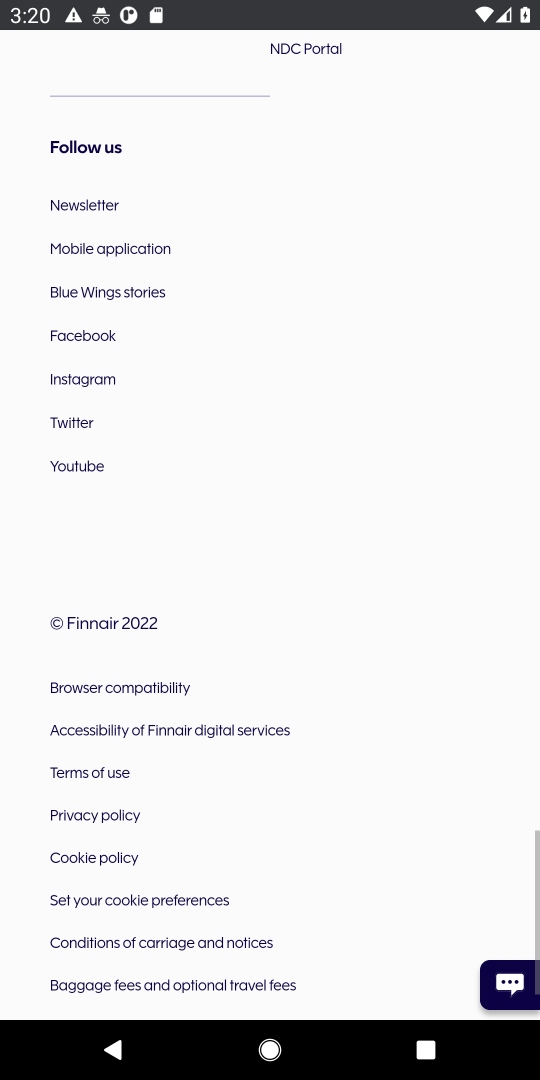
Step 49: drag from (363, 817) to (349, 948)
Your task to perform on an android device: Search for flights from Helsinki to Seoul Image 50: 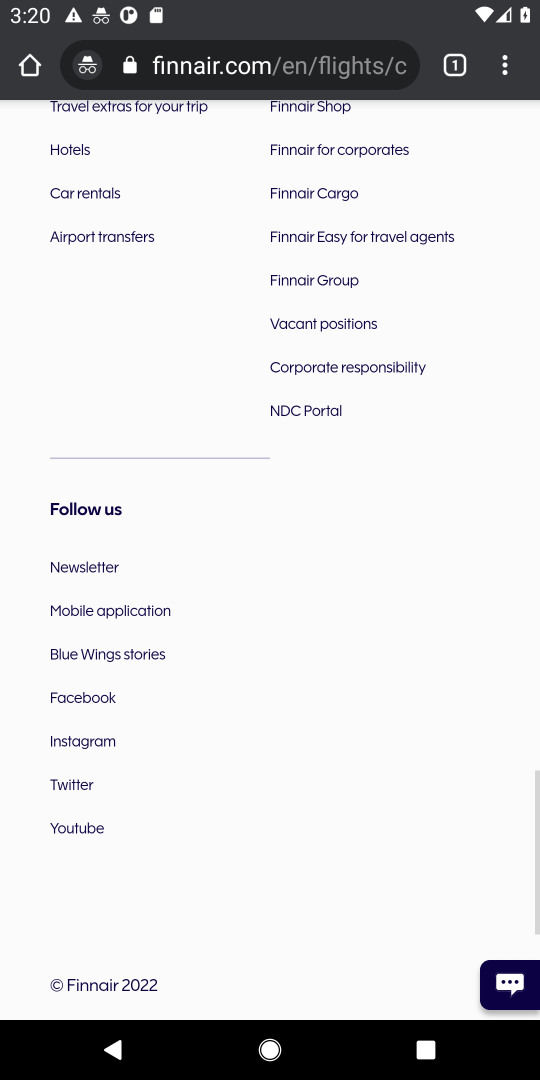
Step 50: drag from (364, 540) to (380, 925)
Your task to perform on an android device: Search for flights from Helsinki to Seoul Image 51: 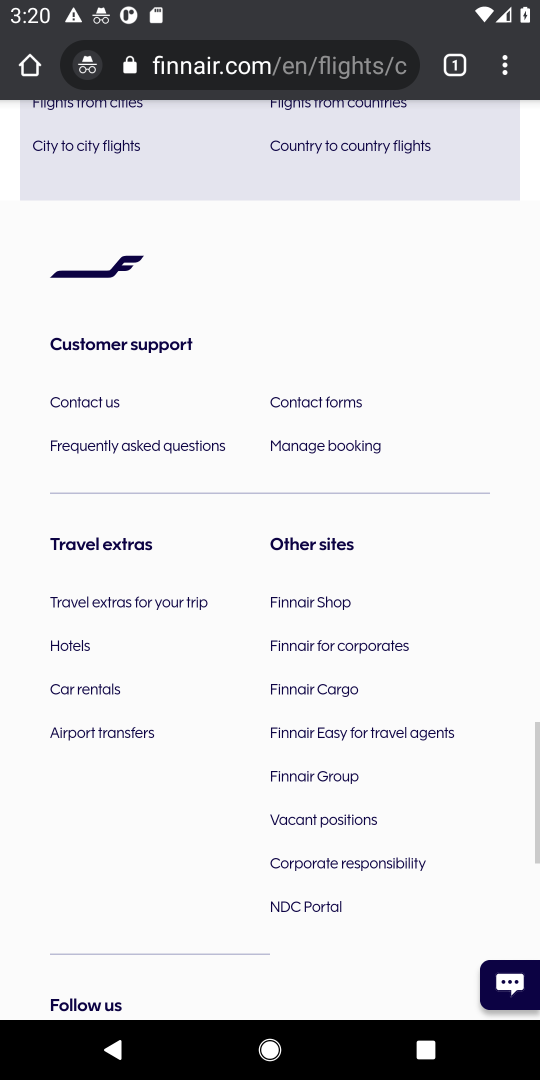
Step 51: click (454, 909)
Your task to perform on an android device: Search for flights from Helsinki to Seoul Image 52: 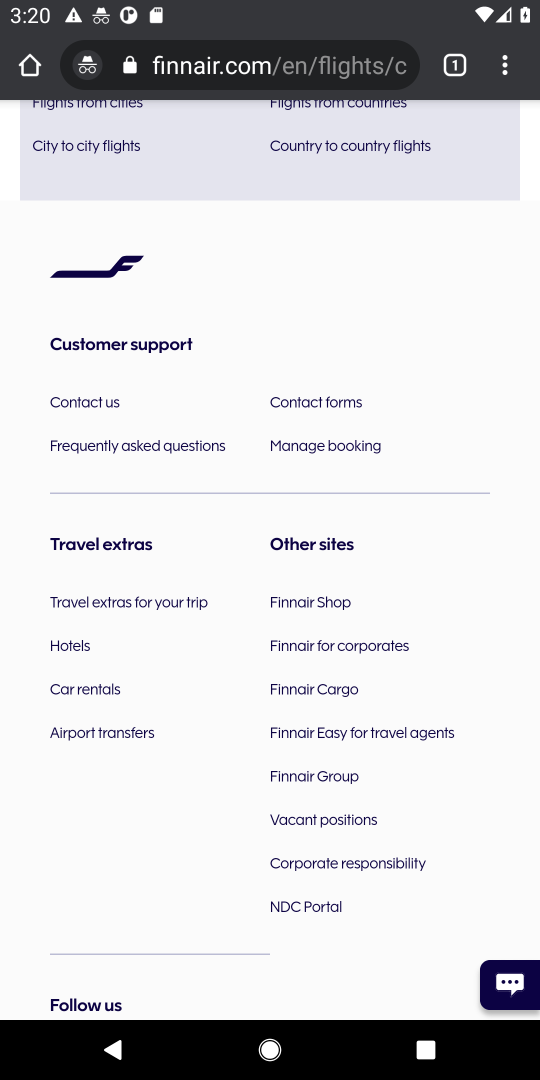
Step 52: drag from (422, 493) to (443, 909)
Your task to perform on an android device: Search for flights from Helsinki to Seoul Image 53: 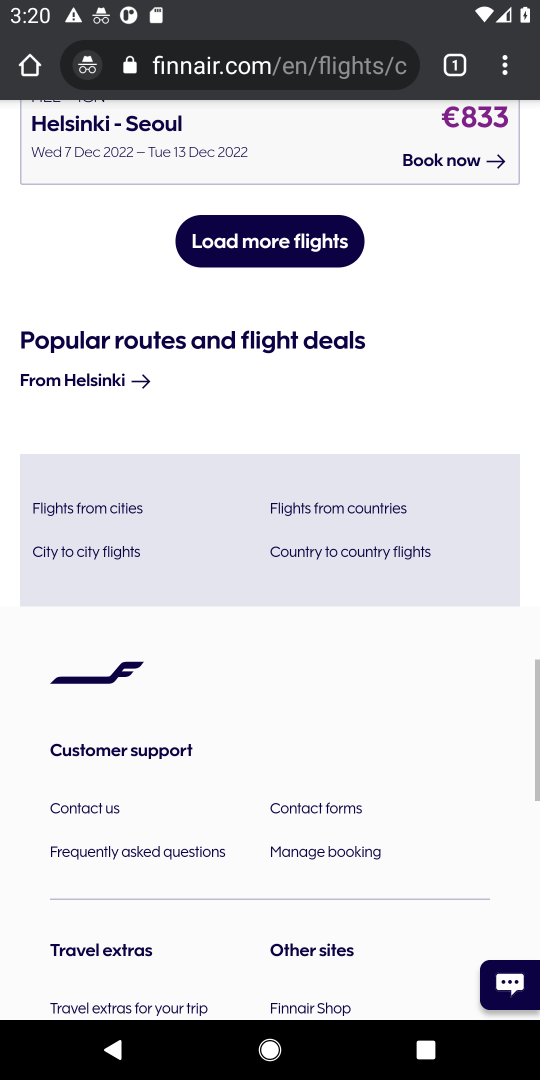
Step 53: drag from (418, 543) to (448, 924)
Your task to perform on an android device: Search for flights from Helsinki to Seoul Image 54: 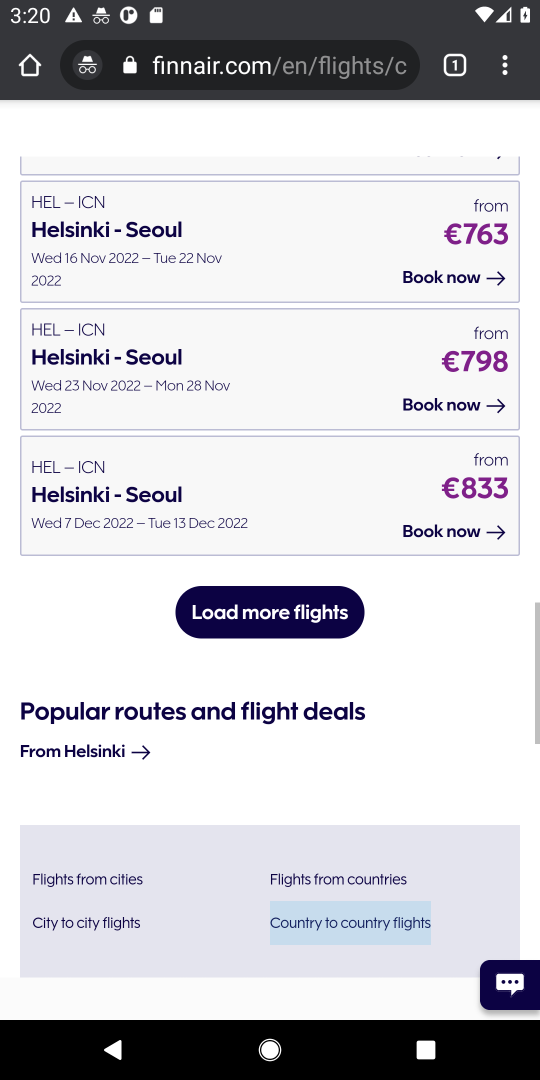
Step 54: drag from (434, 467) to (492, 938)
Your task to perform on an android device: Search for flights from Helsinki to Seoul Image 55: 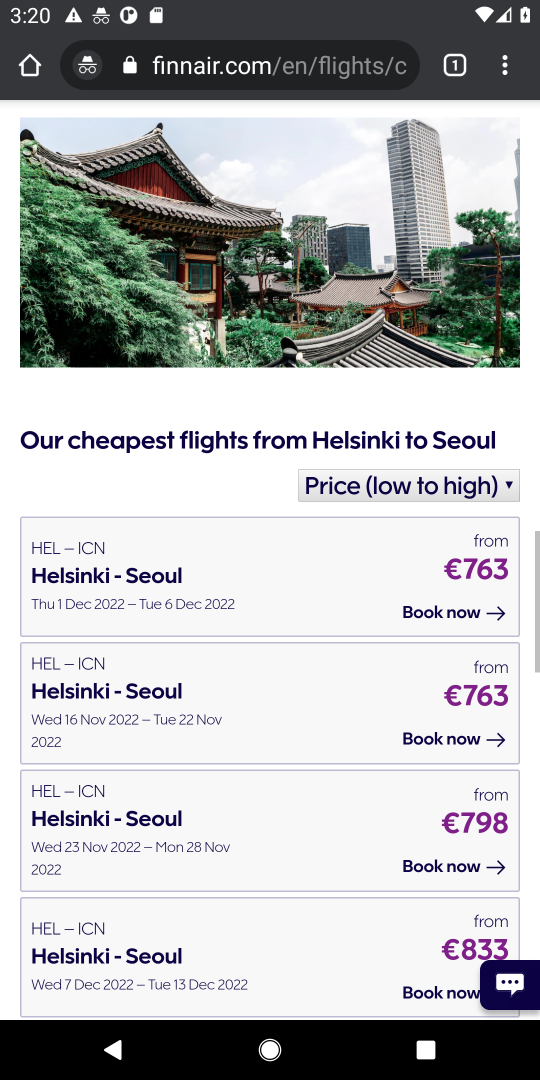
Step 55: drag from (468, 754) to (465, 950)
Your task to perform on an android device: Search for flights from Helsinki to Seoul Image 56: 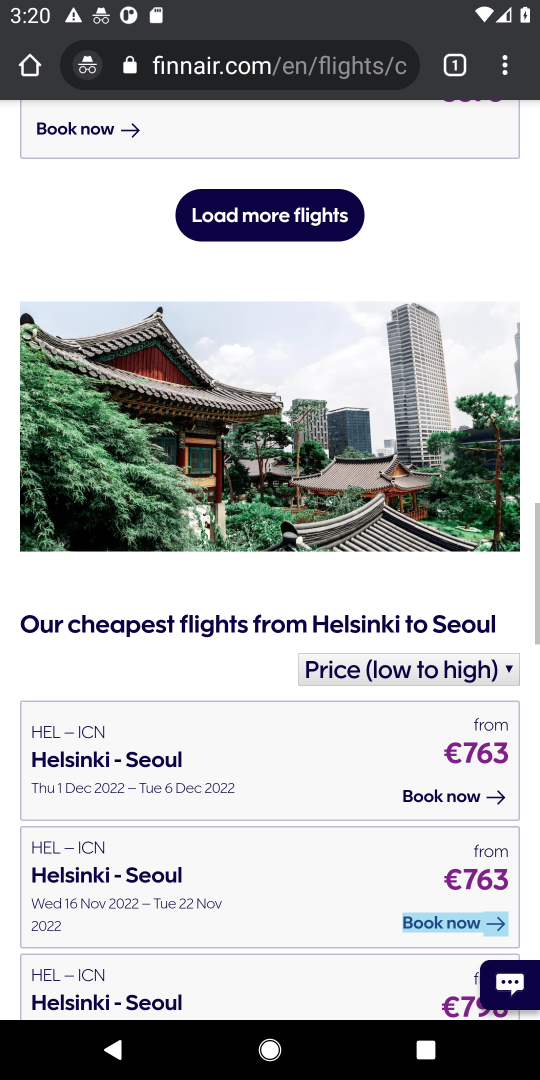
Step 56: drag from (414, 839) to (428, 1005)
Your task to perform on an android device: Search for flights from Helsinki to Seoul Image 57: 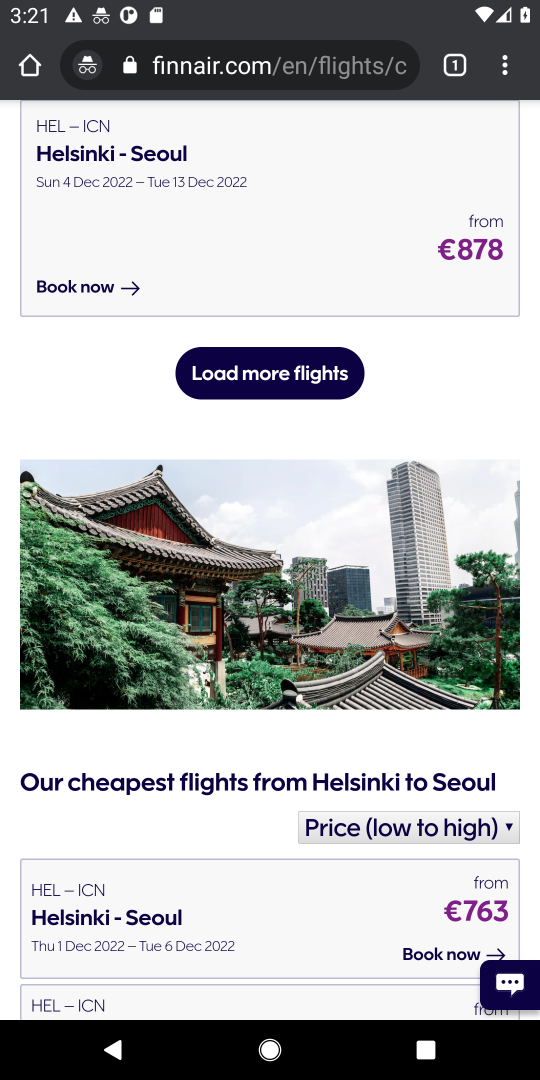
Step 57: click (339, 951)
Your task to perform on an android device: Search for flights from Helsinki to Seoul Image 58: 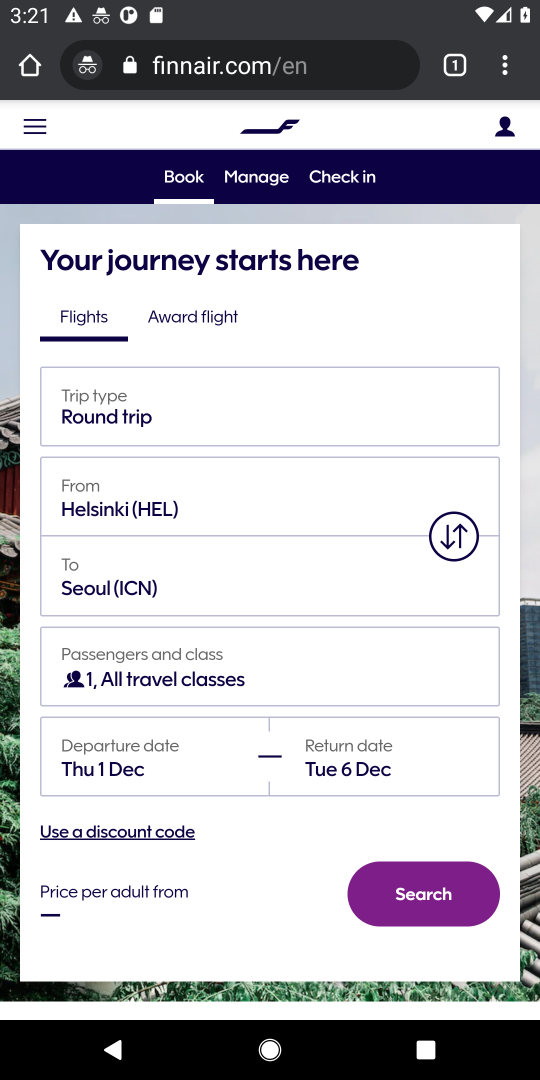
Step 58: drag from (349, 910) to (318, 564)
Your task to perform on an android device: Search for flights from Helsinki to Seoul Image 59: 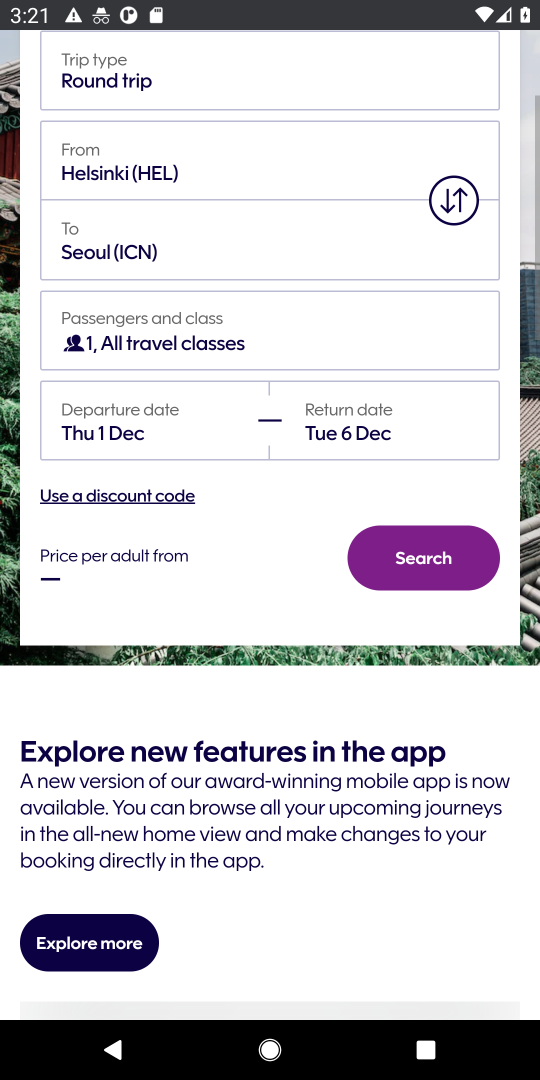
Step 59: drag from (360, 729) to (352, 578)
Your task to perform on an android device: Search for flights from Helsinki to Seoul Image 60: 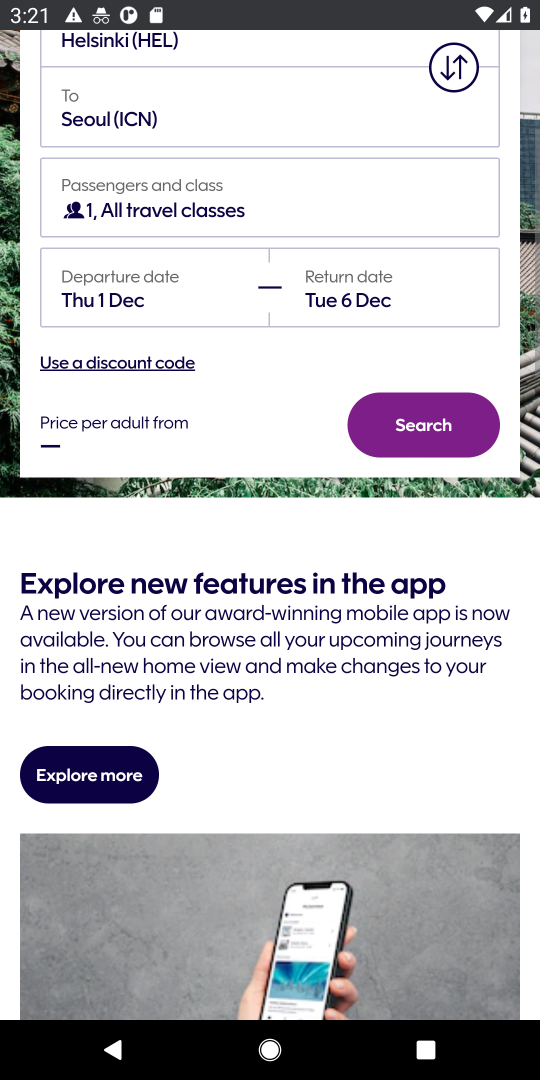
Step 60: drag from (324, 587) to (324, 526)
Your task to perform on an android device: Search for flights from Helsinki to Seoul Image 61: 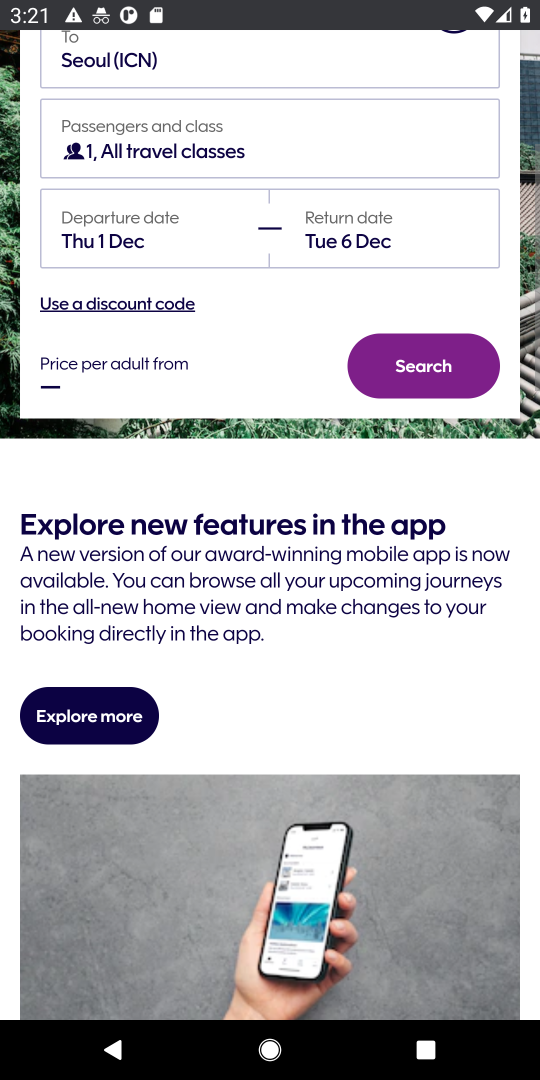
Step 61: drag from (312, 816) to (294, 586)
Your task to perform on an android device: Search for flights from Helsinki to Seoul Image 62: 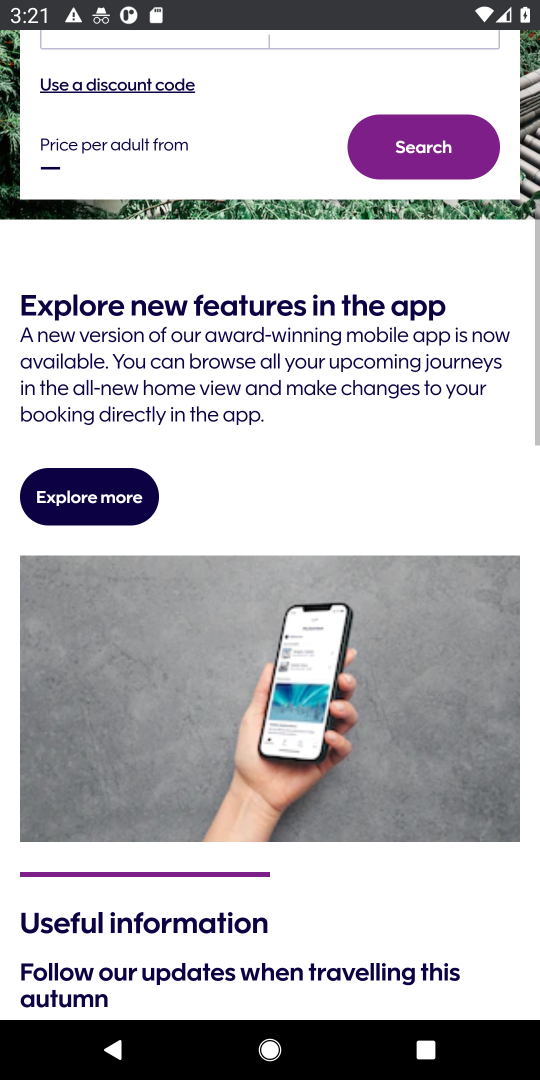
Step 62: drag from (256, 923) to (370, 161)
Your task to perform on an android device: Search for flights from Helsinki to Seoul Image 63: 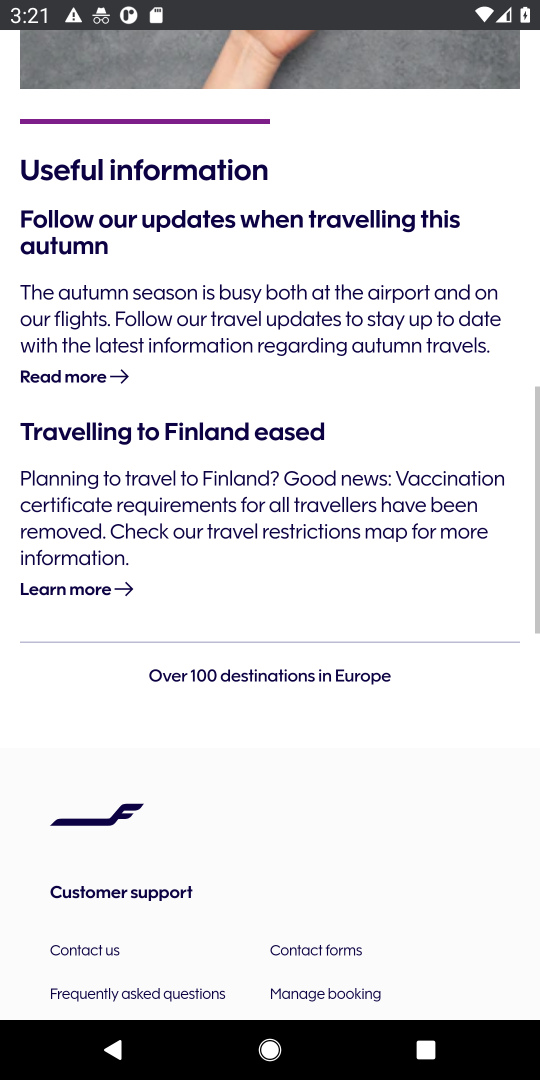
Step 63: drag from (345, 978) to (360, 64)
Your task to perform on an android device: Search for flights from Helsinki to Seoul Image 64: 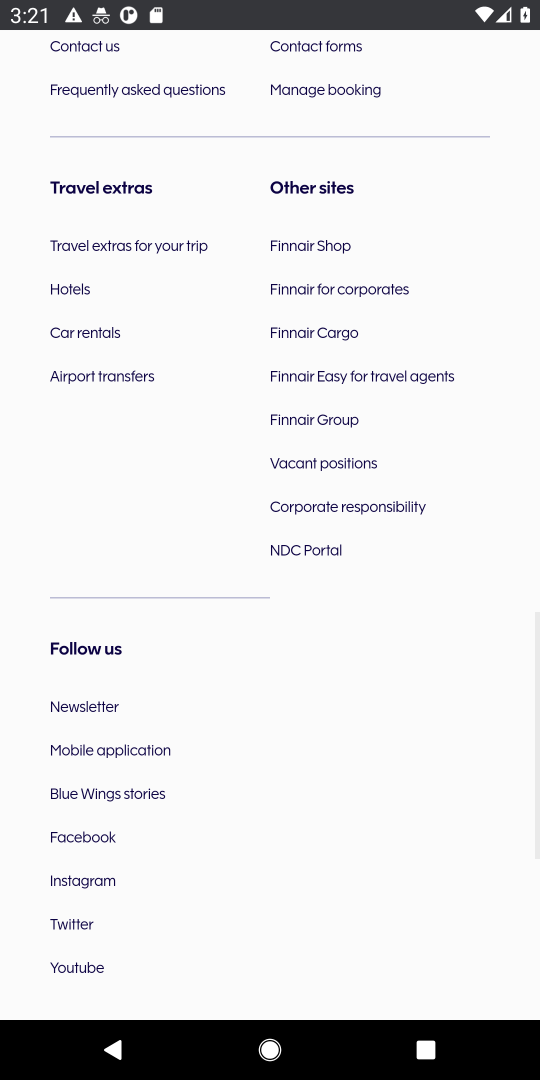
Step 64: drag from (280, 1004) to (283, 142)
Your task to perform on an android device: Search for flights from Helsinki to Seoul Image 65: 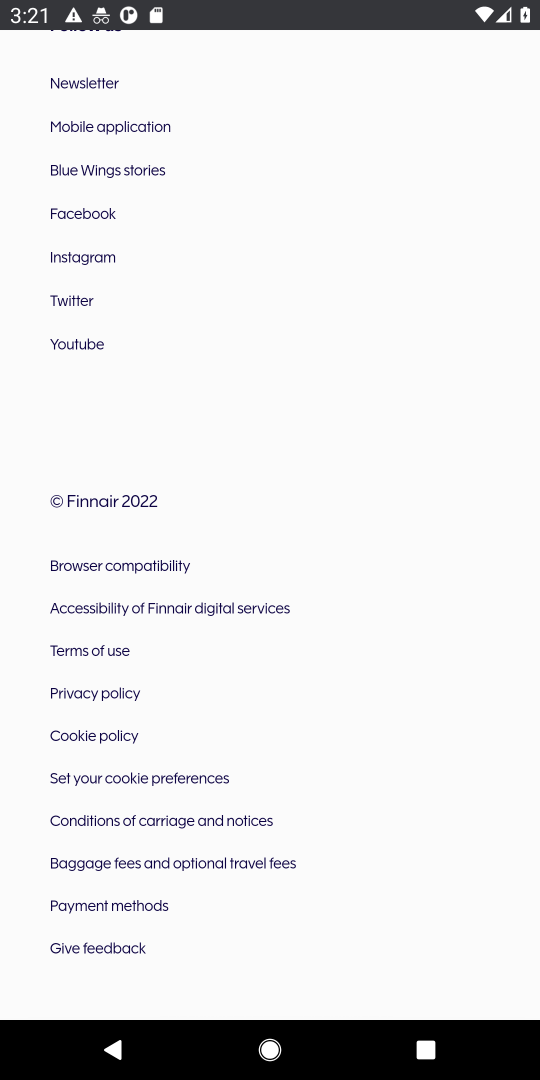
Step 65: press back button
Your task to perform on an android device: Search for flights from Helsinki to Seoul Image 66: 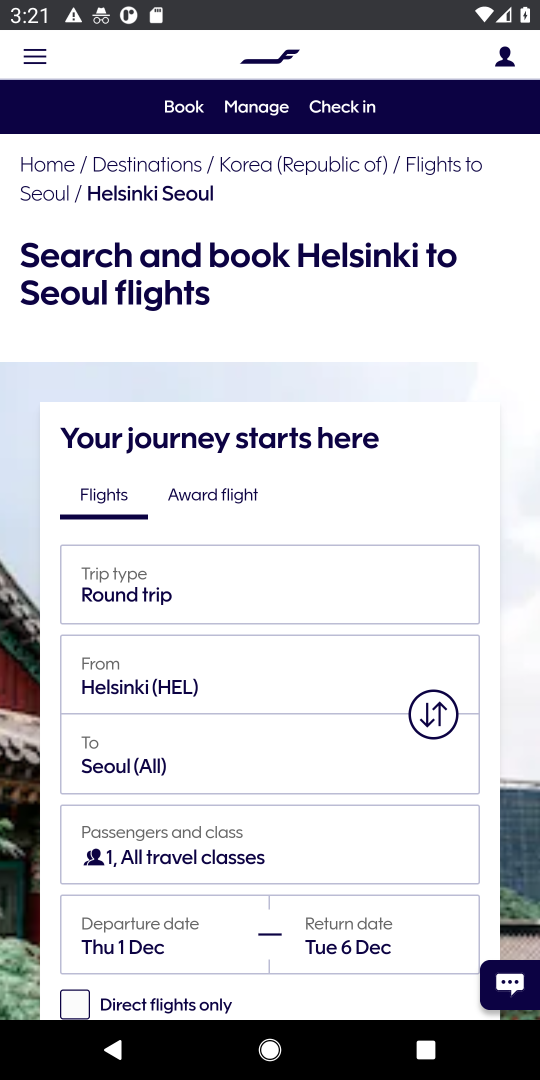
Step 66: press back button
Your task to perform on an android device: Search for flights from Helsinki to Seoul Image 67: 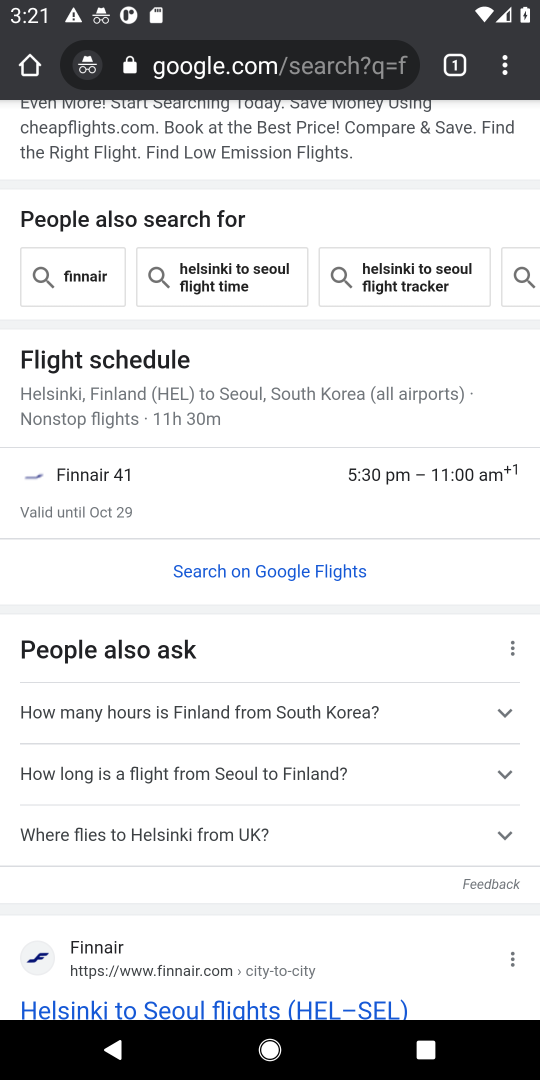
Step 67: drag from (296, 940) to (352, 244)
Your task to perform on an android device: Search for flights from Helsinki to Seoul Image 68: 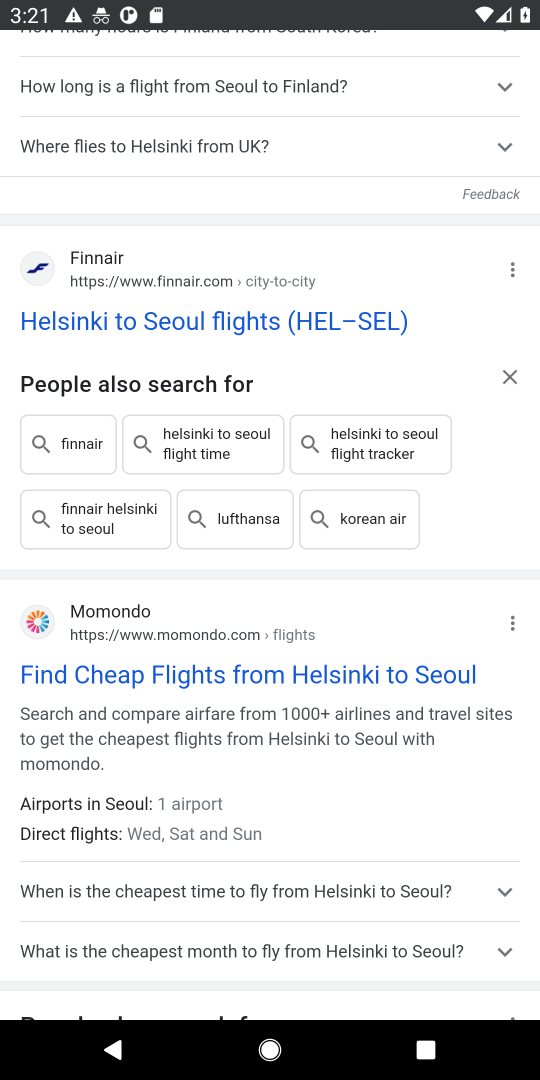
Step 68: click (190, 667)
Your task to perform on an android device: Search for flights from Helsinki to Seoul Image 69: 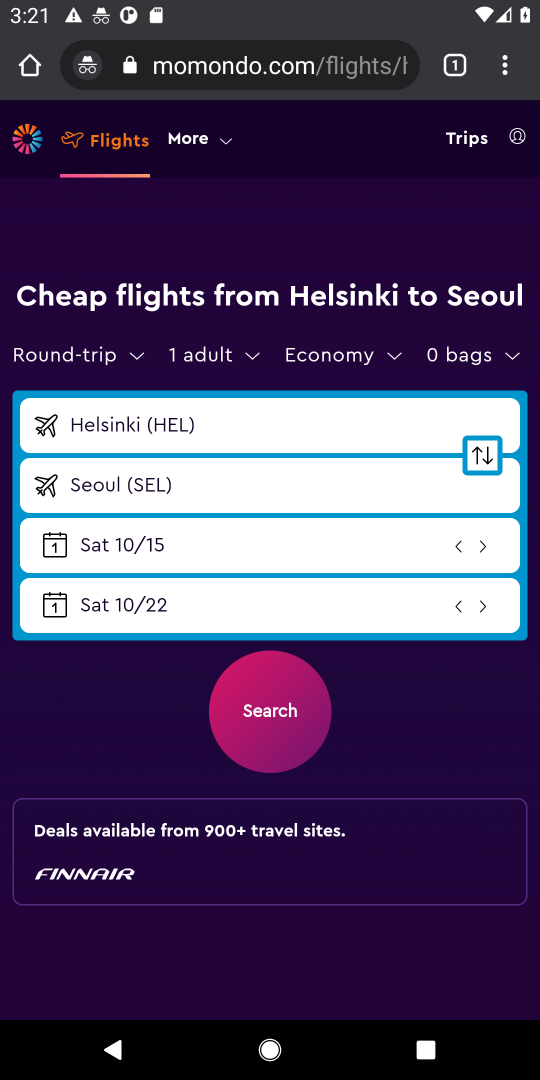
Step 69: task complete